Your task to perform on an android device: Open Chrome and go to the settings page Image 0: 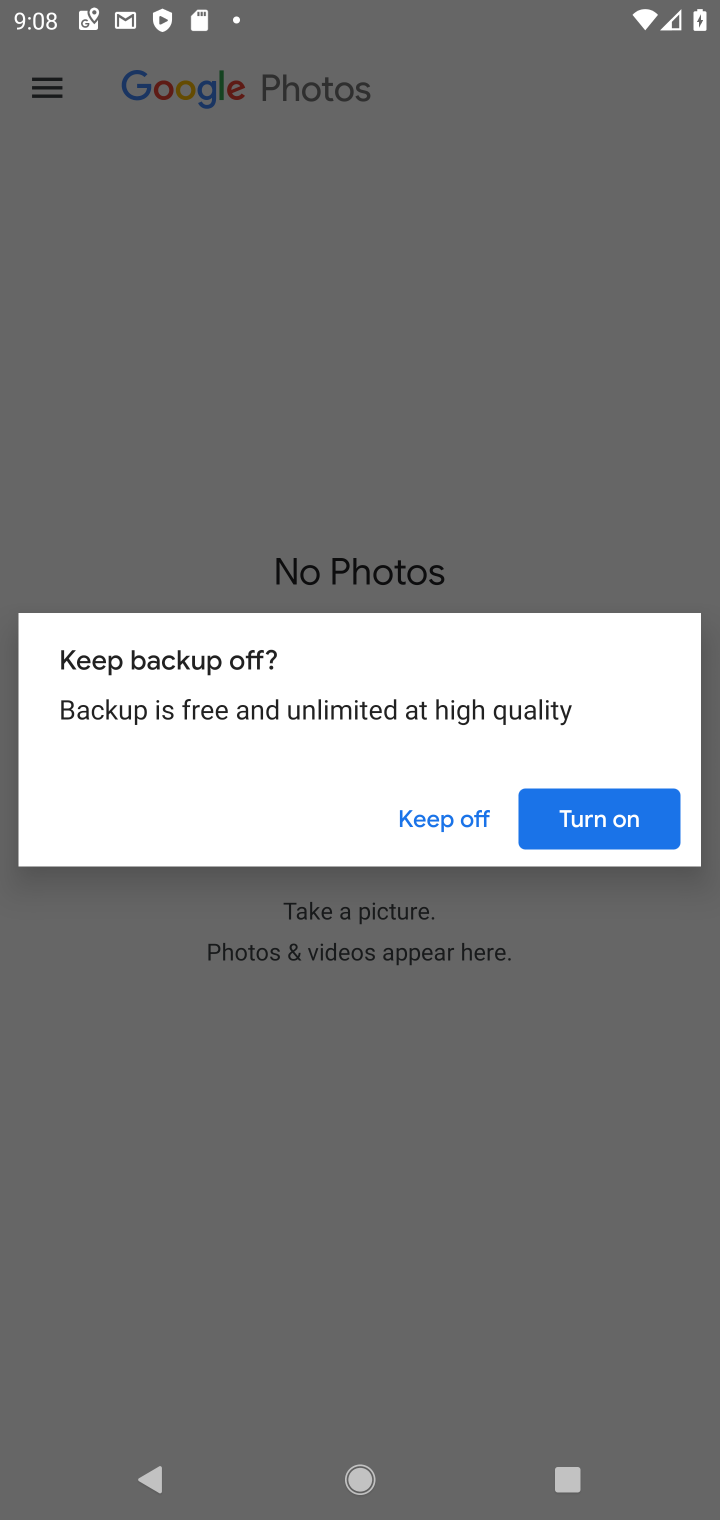
Step 0: click (706, 1079)
Your task to perform on an android device: Open Chrome and go to the settings page Image 1: 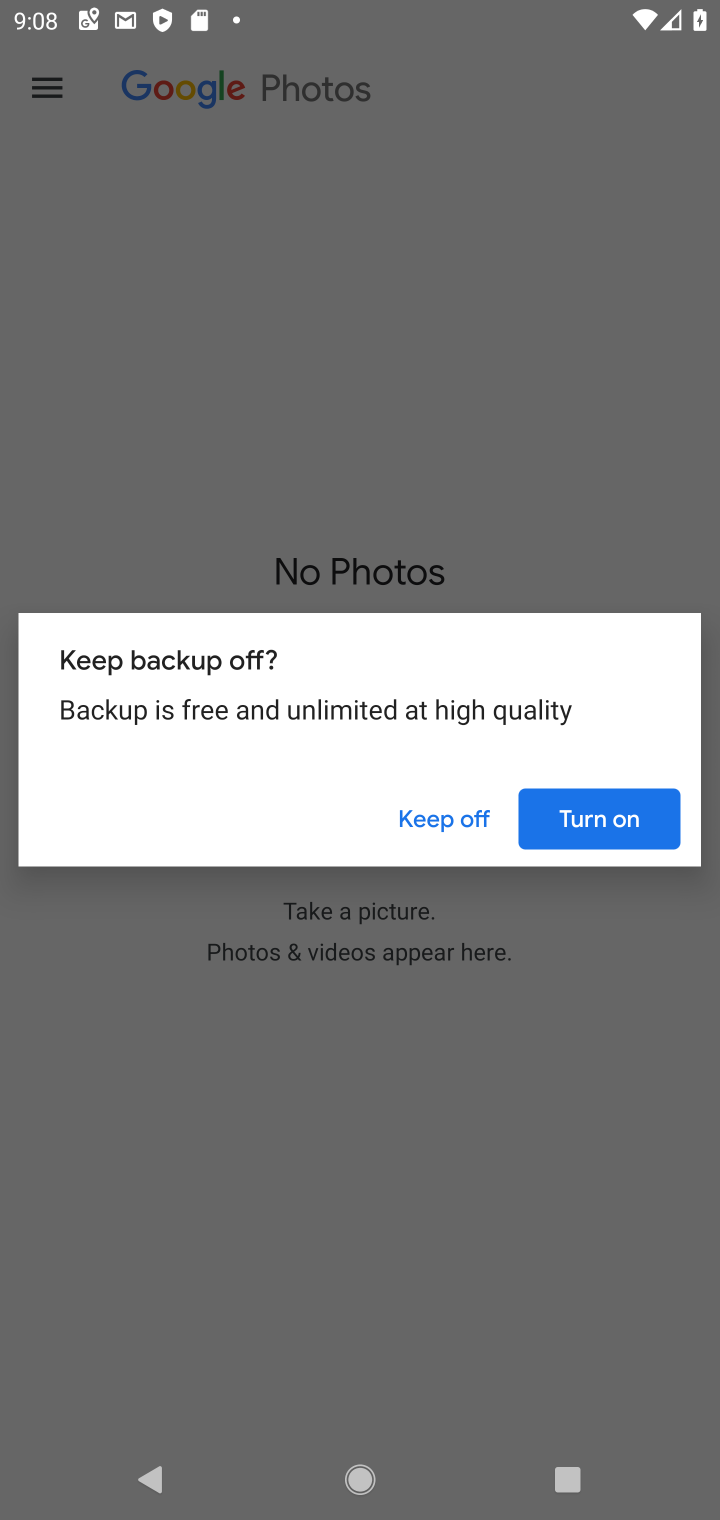
Step 1: click (572, 819)
Your task to perform on an android device: Open Chrome and go to the settings page Image 2: 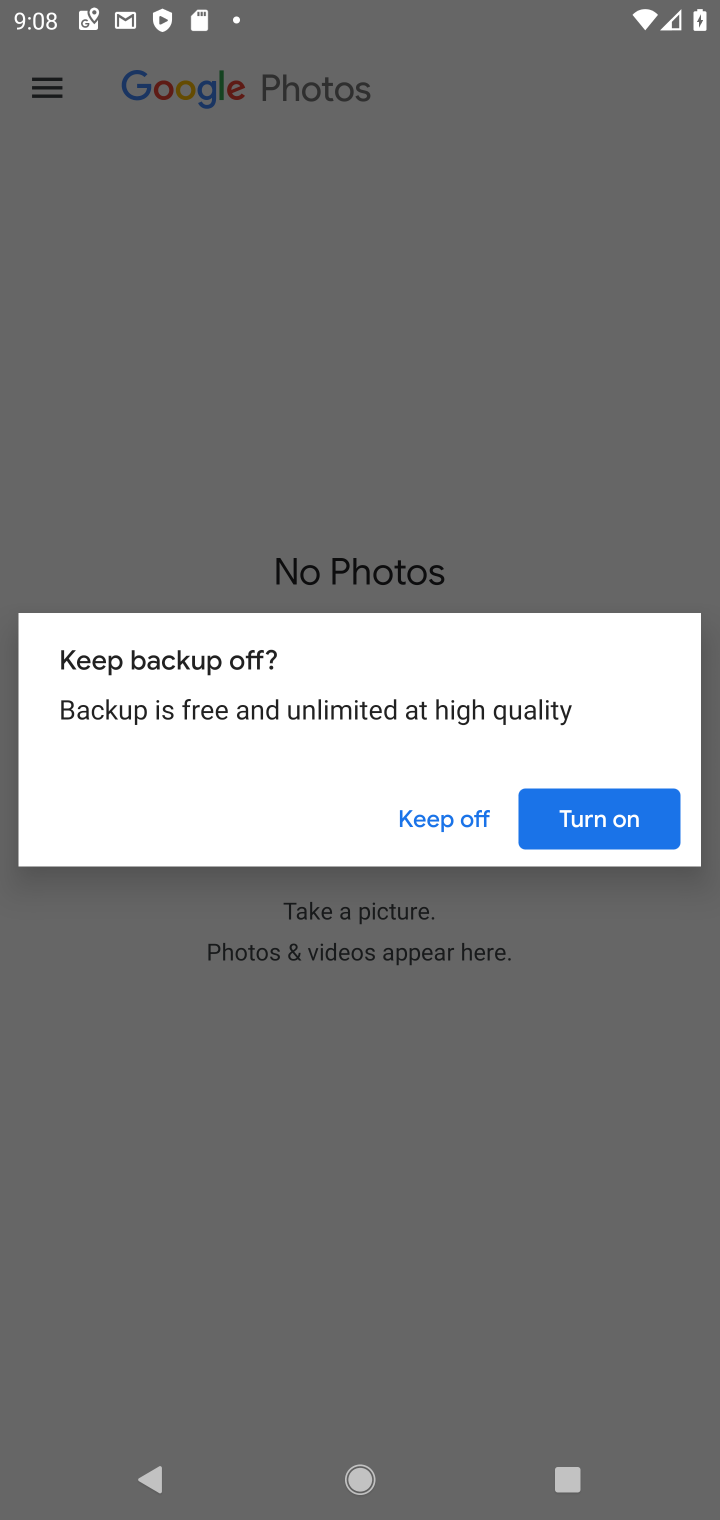
Step 2: press back button
Your task to perform on an android device: Open Chrome and go to the settings page Image 3: 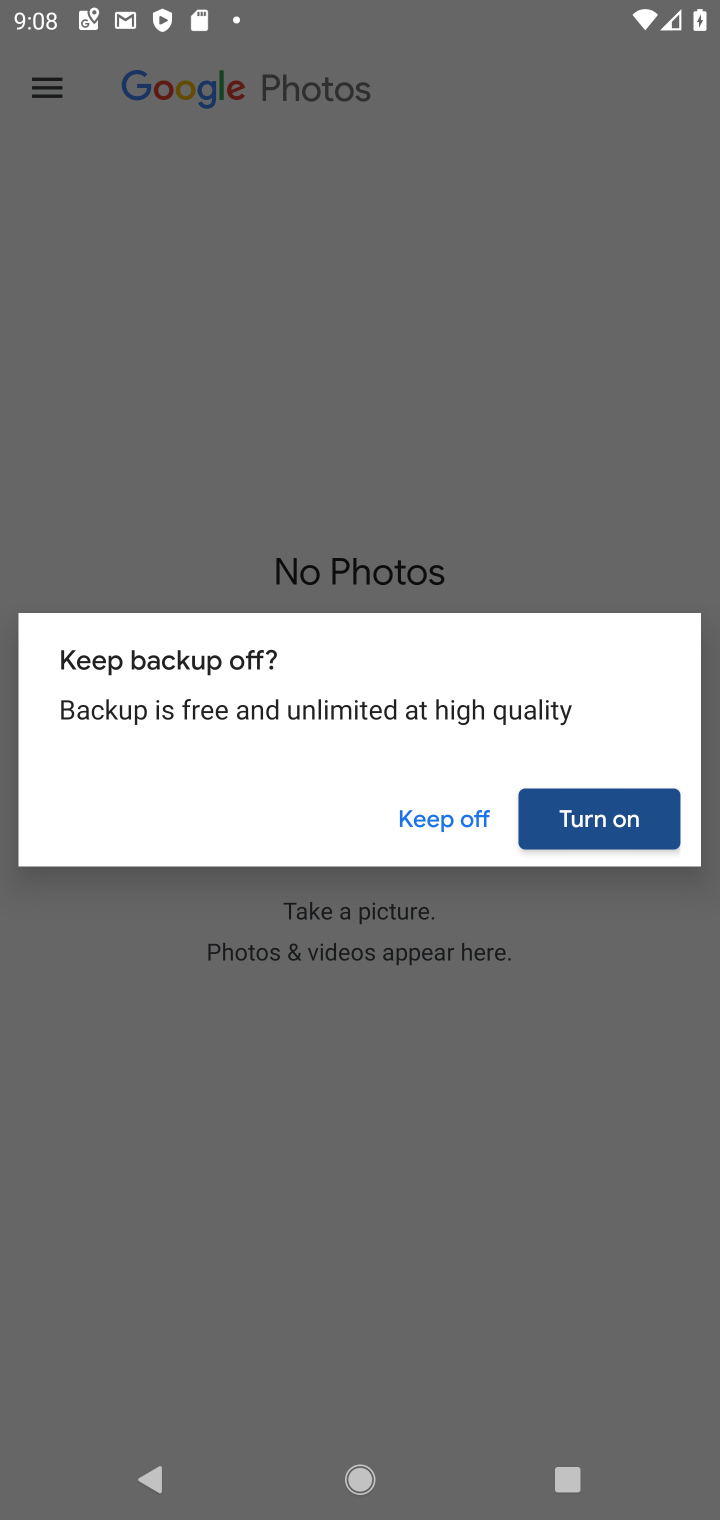
Step 3: press back button
Your task to perform on an android device: Open Chrome and go to the settings page Image 4: 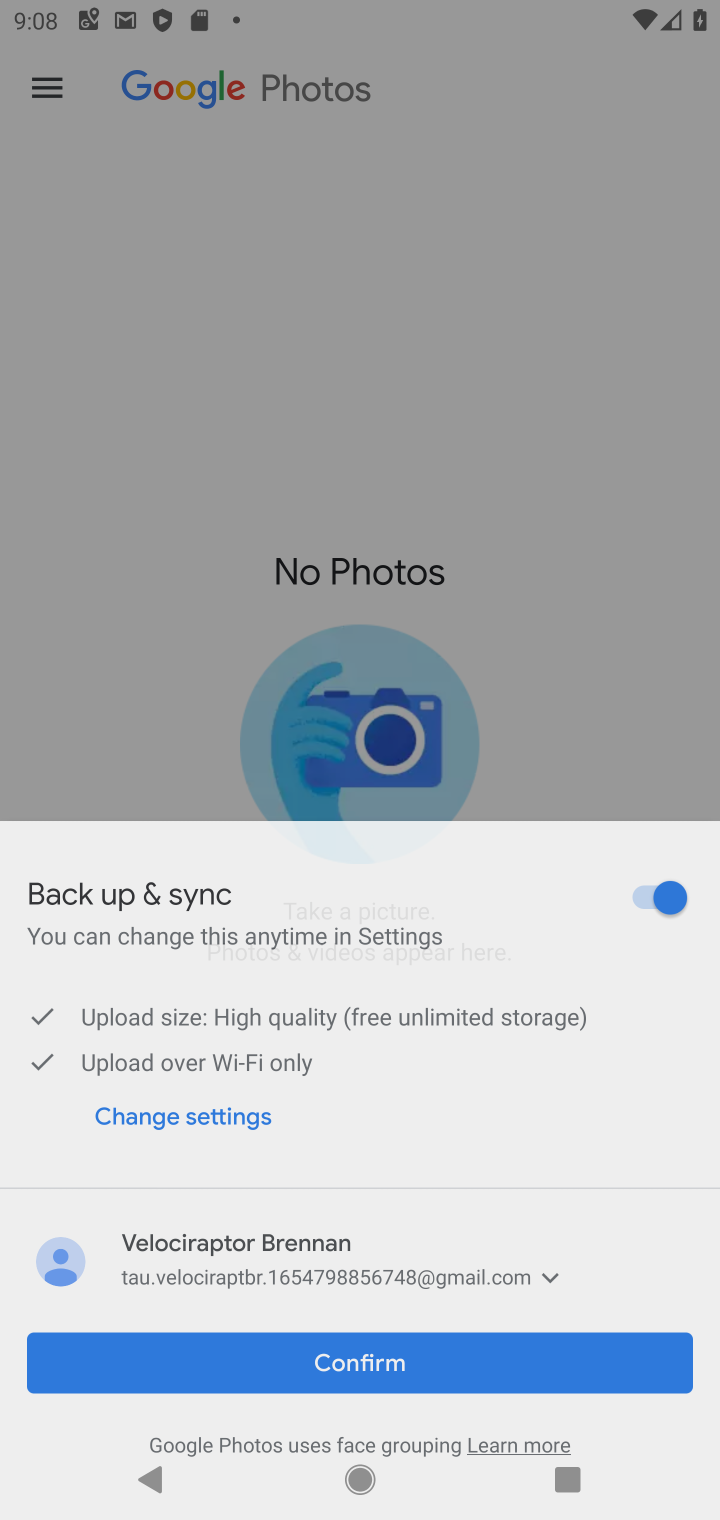
Step 4: press home button
Your task to perform on an android device: Open Chrome and go to the settings page Image 5: 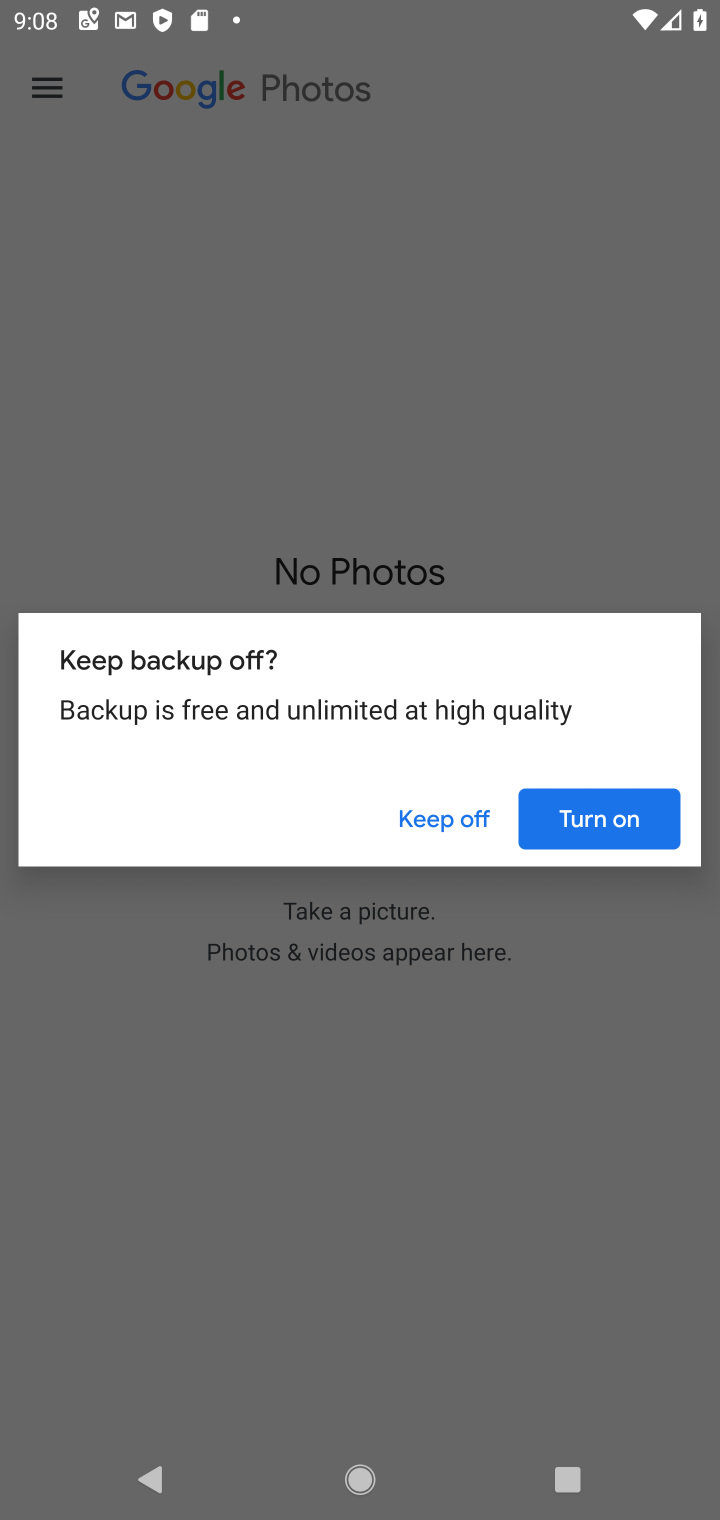
Step 5: press home button
Your task to perform on an android device: Open Chrome and go to the settings page Image 6: 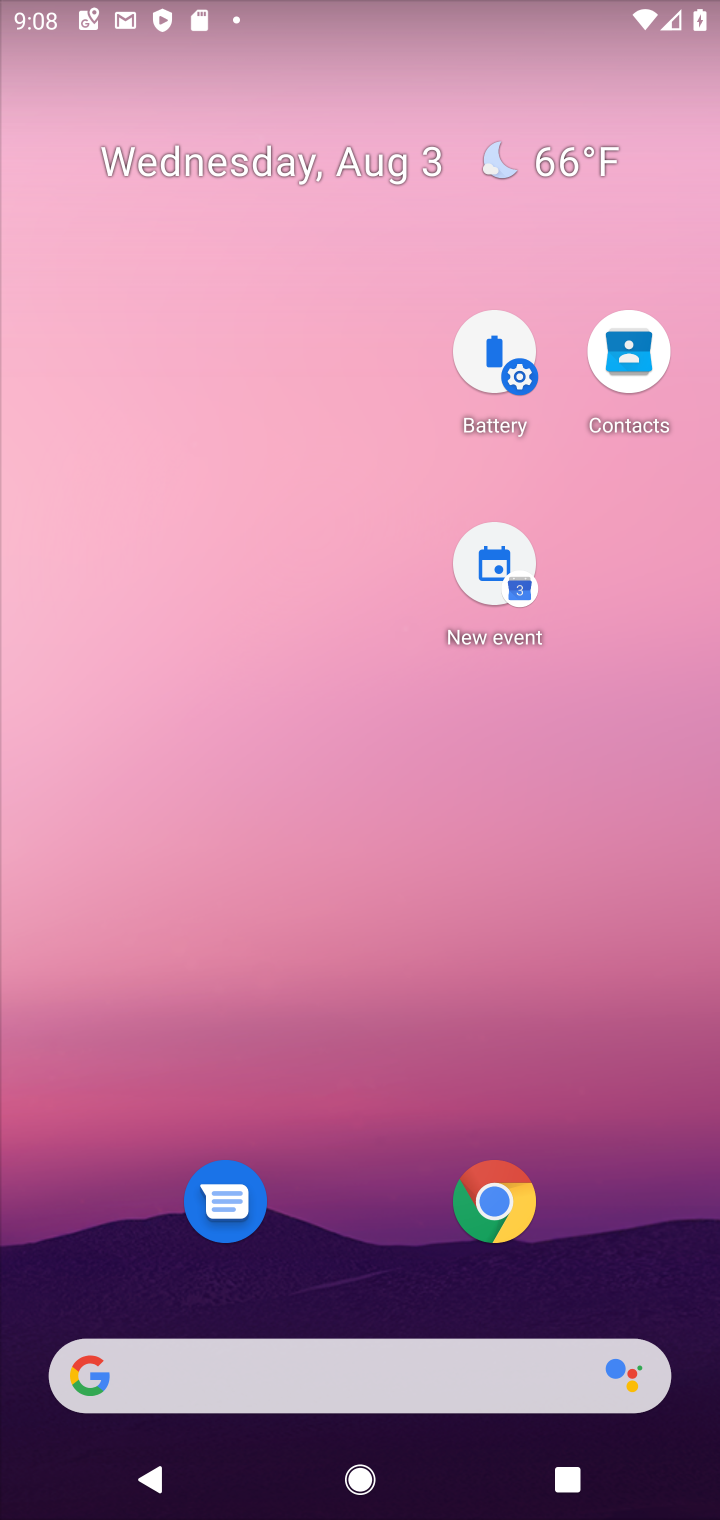
Step 6: press back button
Your task to perform on an android device: Open Chrome and go to the settings page Image 7: 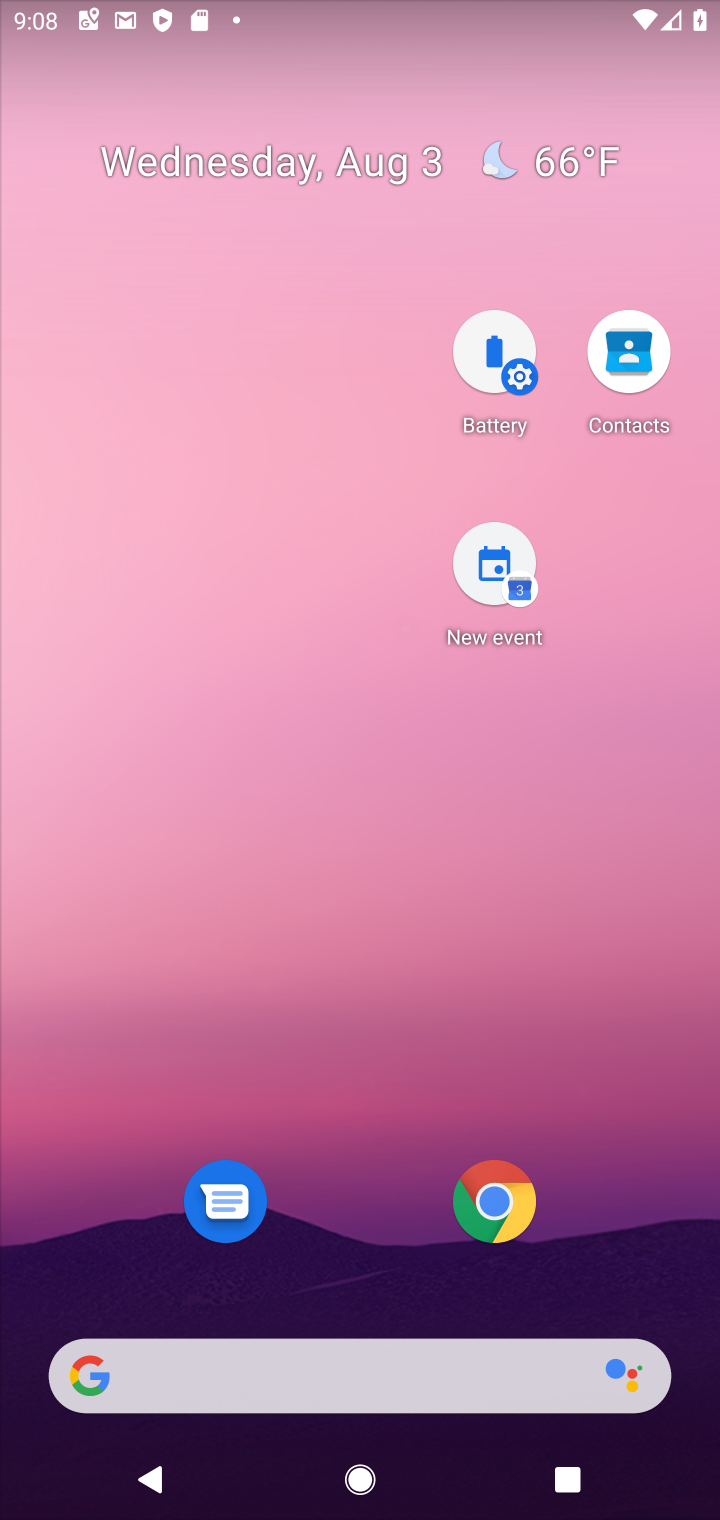
Step 7: drag from (444, 1288) to (403, 367)
Your task to perform on an android device: Open Chrome and go to the settings page Image 8: 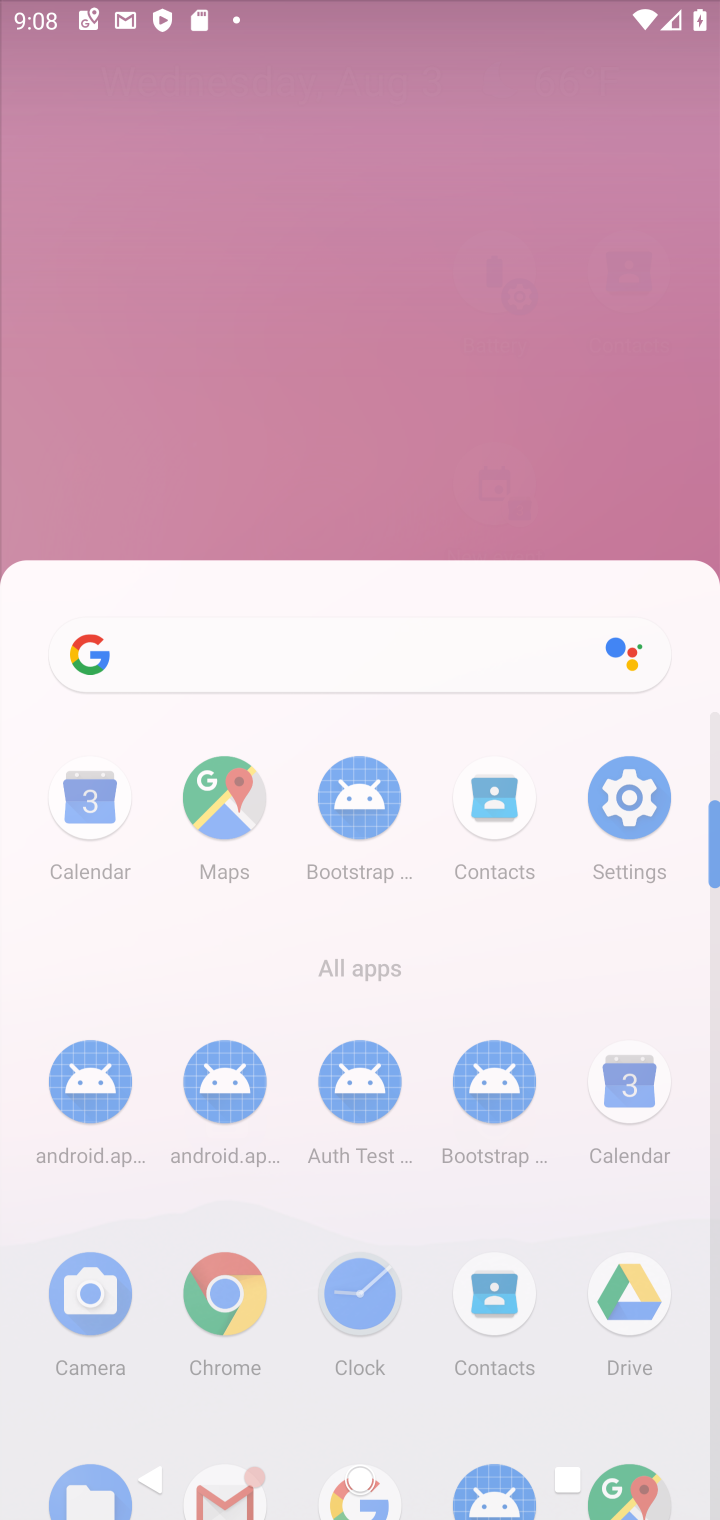
Step 8: drag from (304, 1149) to (432, 432)
Your task to perform on an android device: Open Chrome and go to the settings page Image 9: 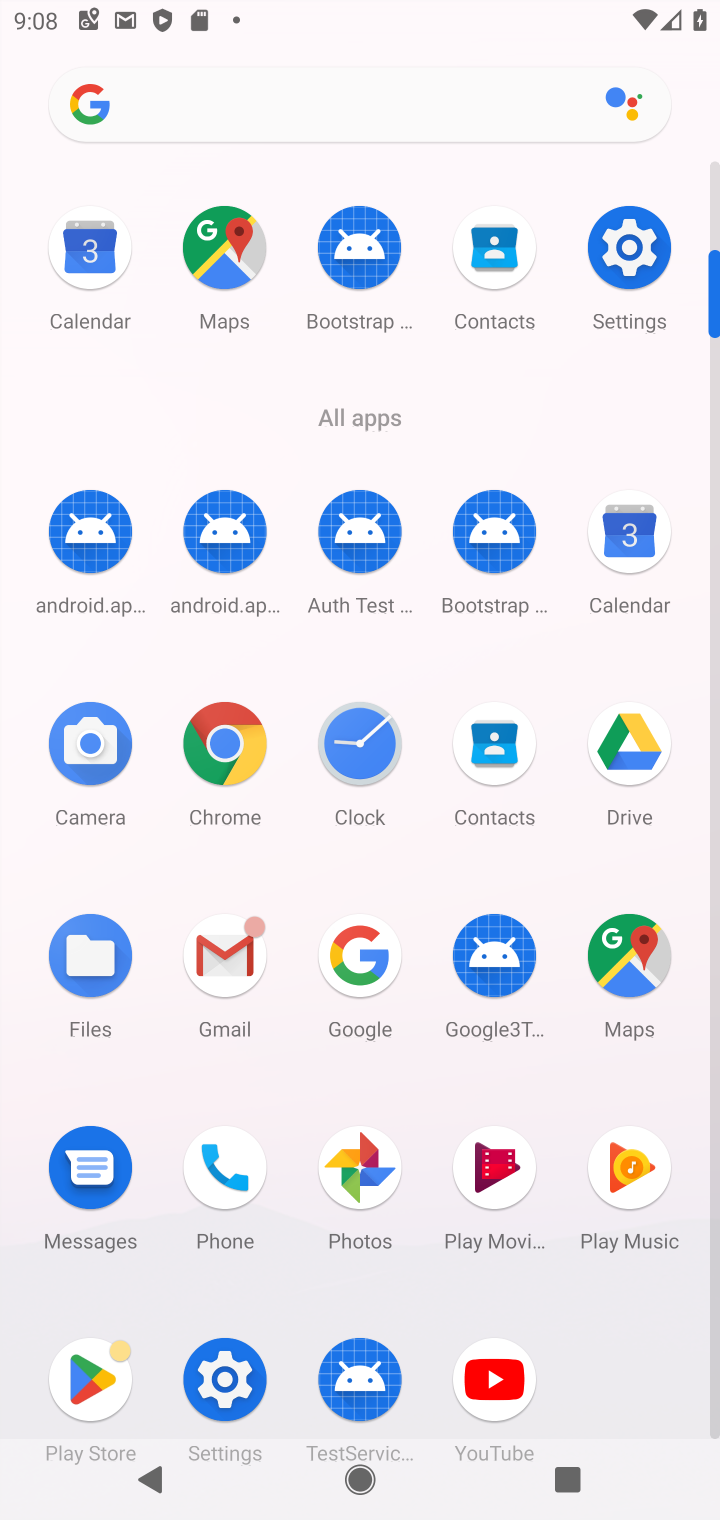
Step 9: click (643, 262)
Your task to perform on an android device: Open Chrome and go to the settings page Image 10: 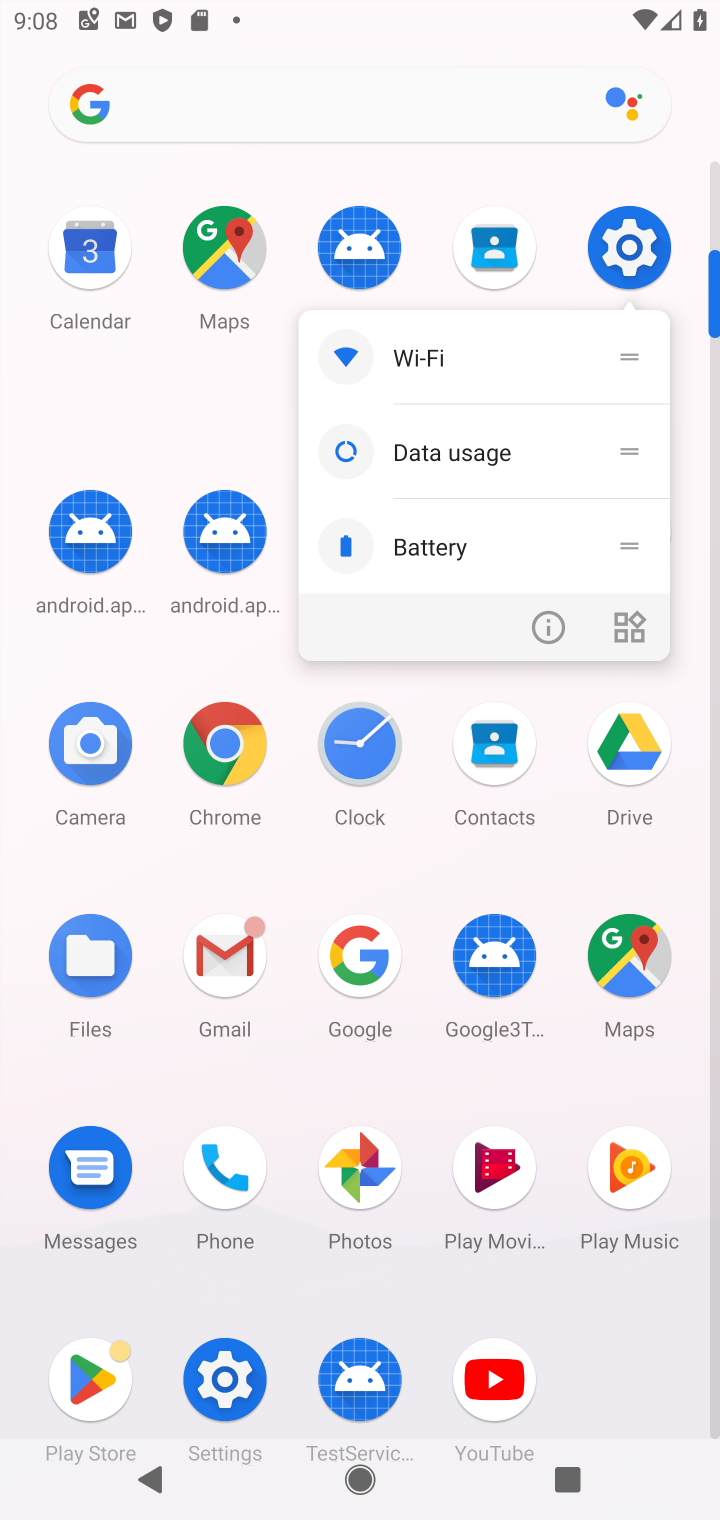
Step 10: click (111, 381)
Your task to perform on an android device: Open Chrome and go to the settings page Image 11: 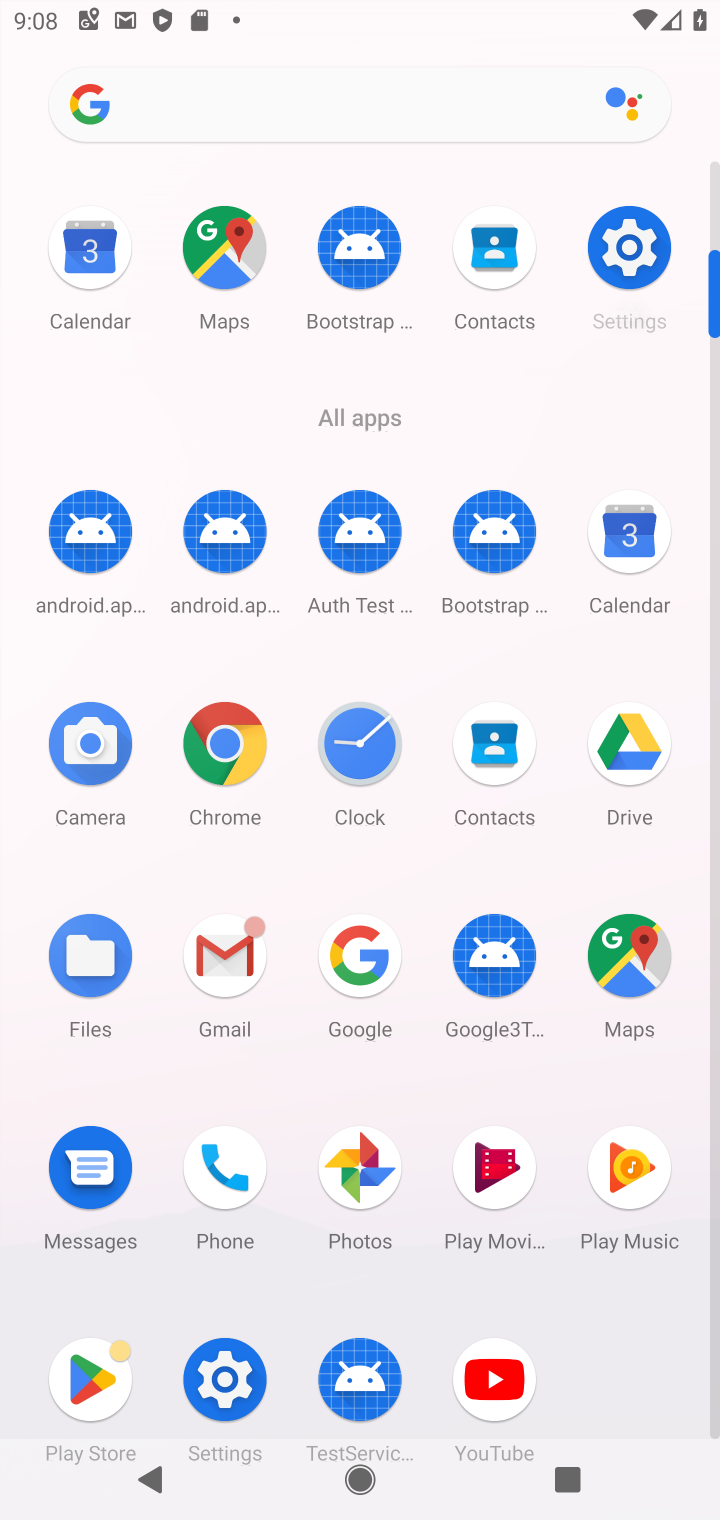
Step 11: click (228, 751)
Your task to perform on an android device: Open Chrome and go to the settings page Image 12: 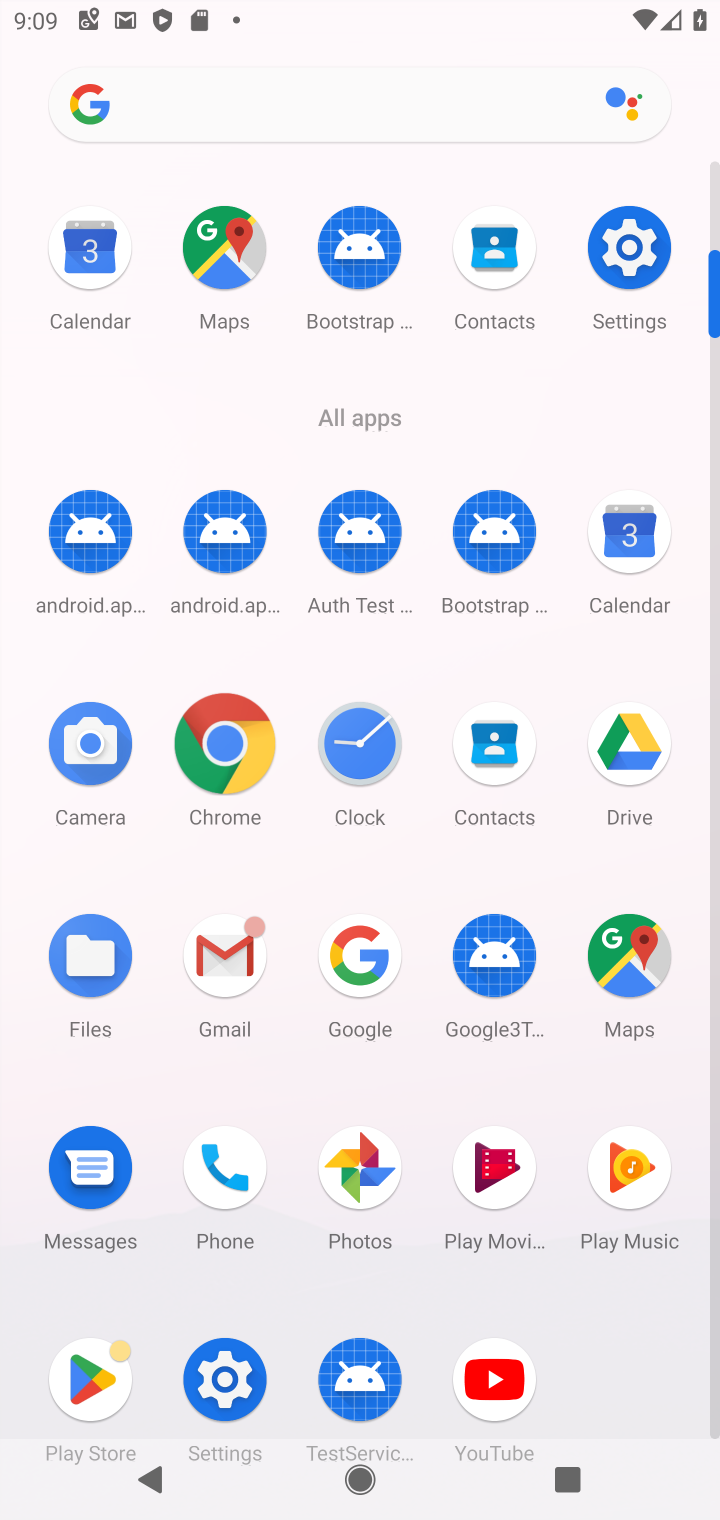
Step 12: click (235, 742)
Your task to perform on an android device: Open Chrome and go to the settings page Image 13: 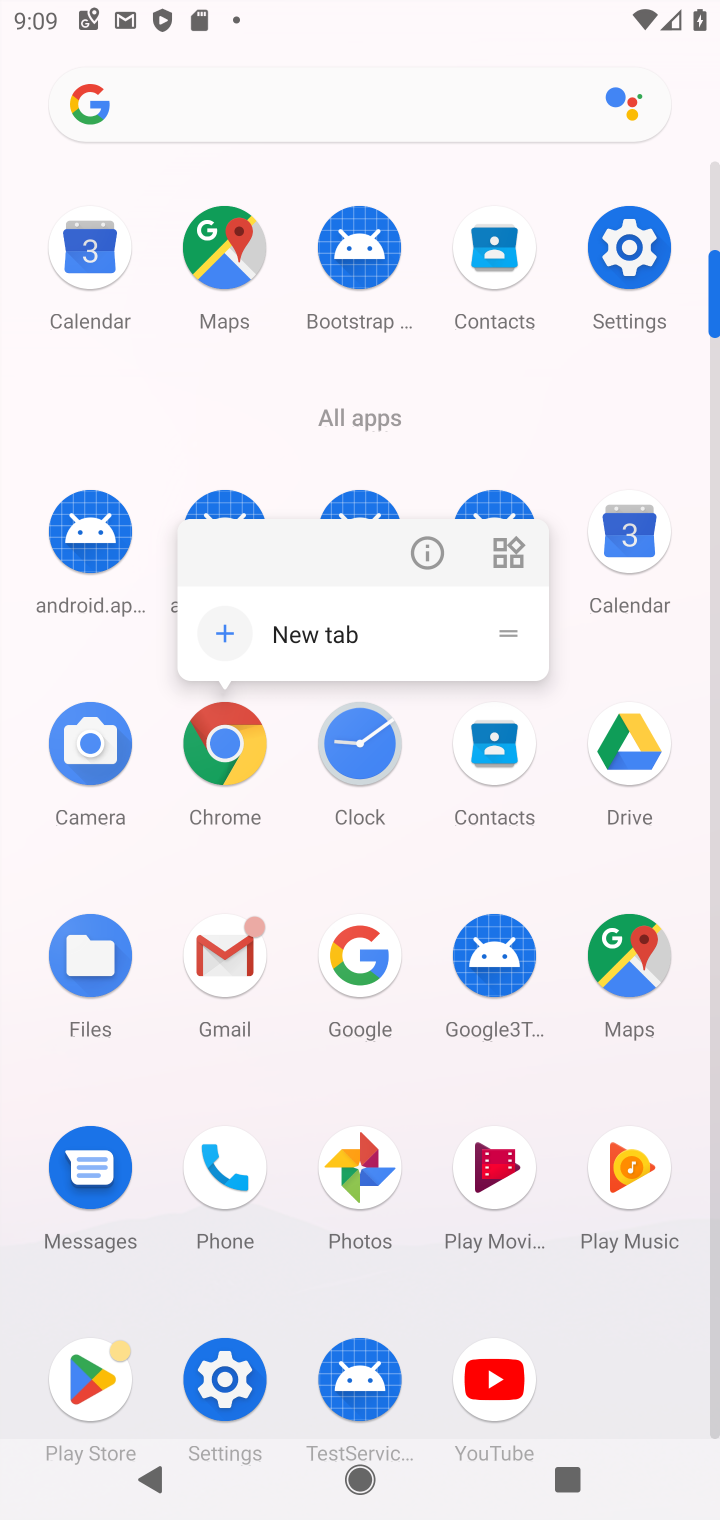
Step 13: click (242, 739)
Your task to perform on an android device: Open Chrome and go to the settings page Image 14: 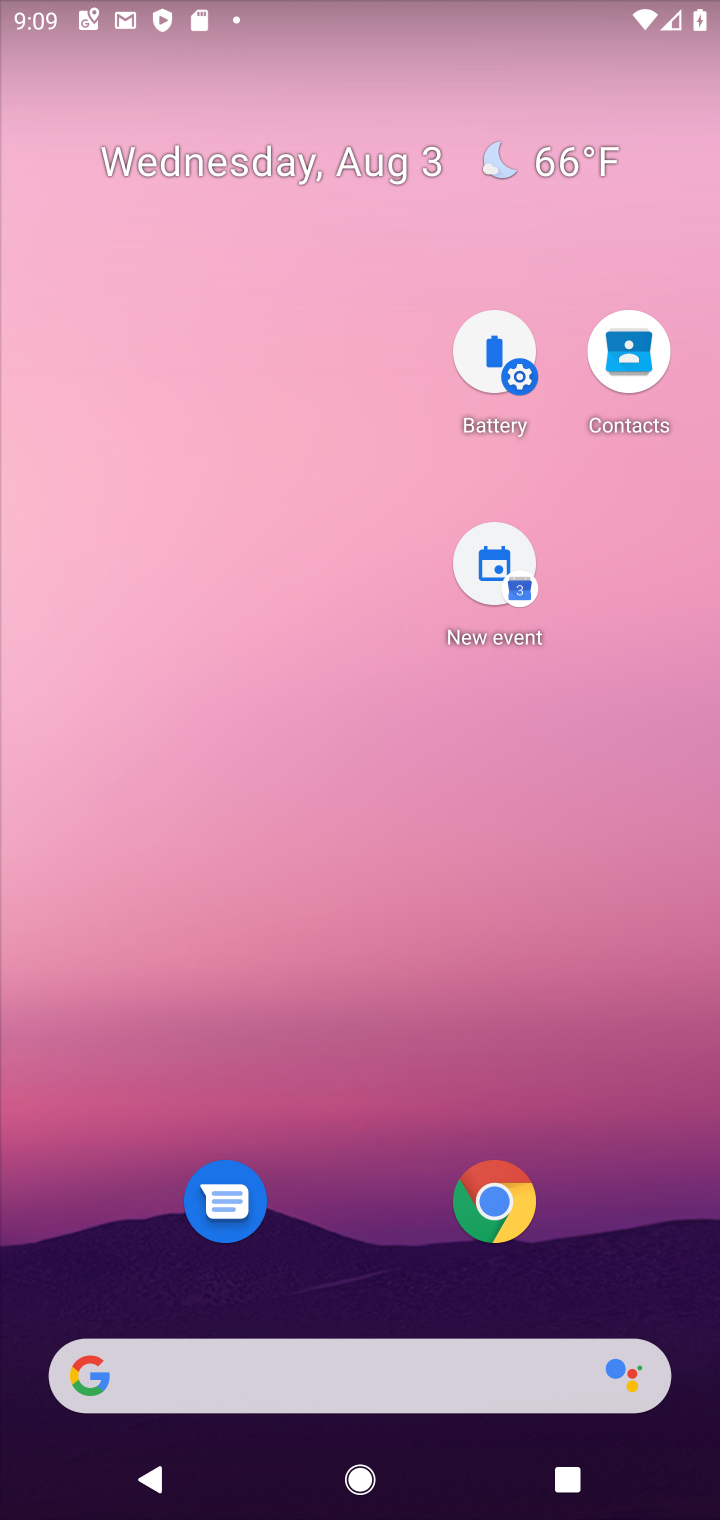
Step 14: drag from (452, 925) to (420, 526)
Your task to perform on an android device: Open Chrome and go to the settings page Image 15: 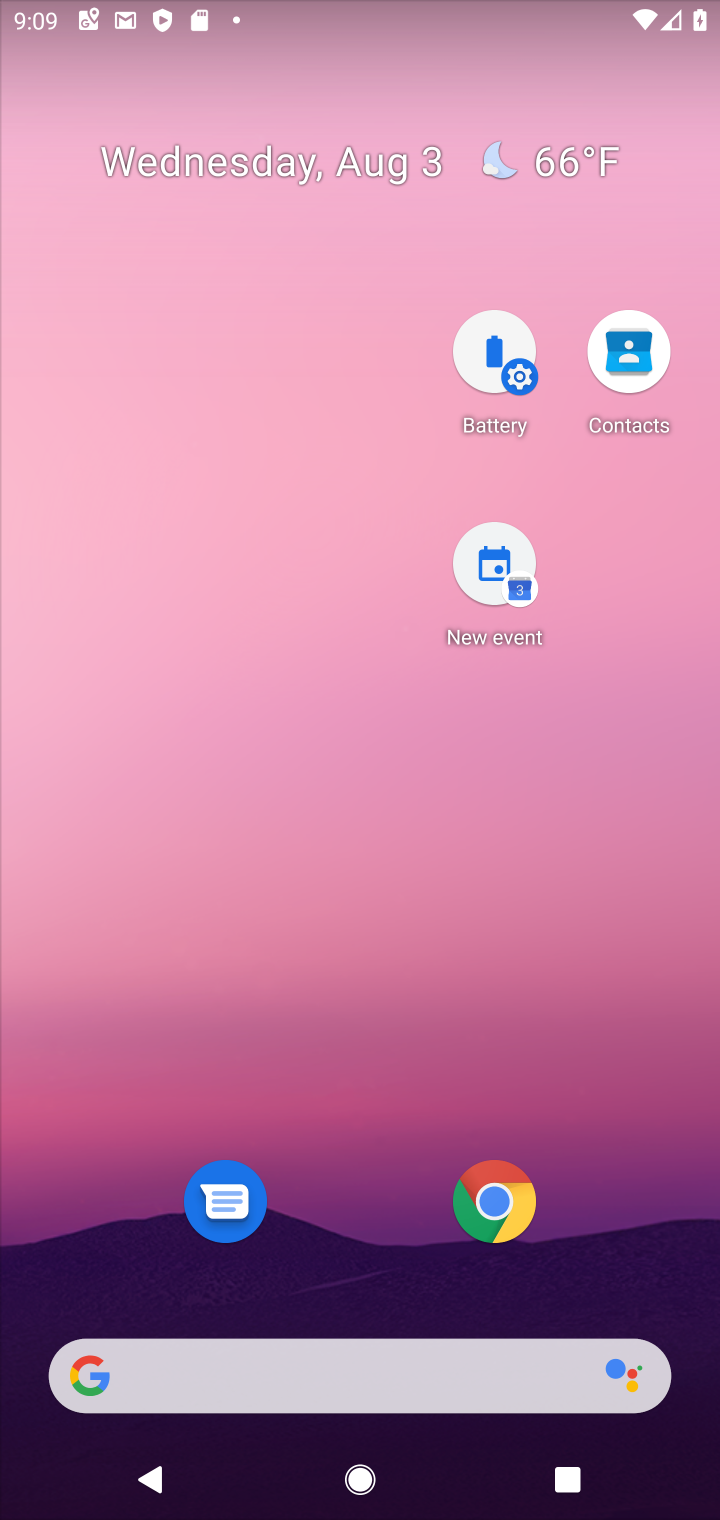
Step 15: click (499, 684)
Your task to perform on an android device: Open Chrome and go to the settings page Image 16: 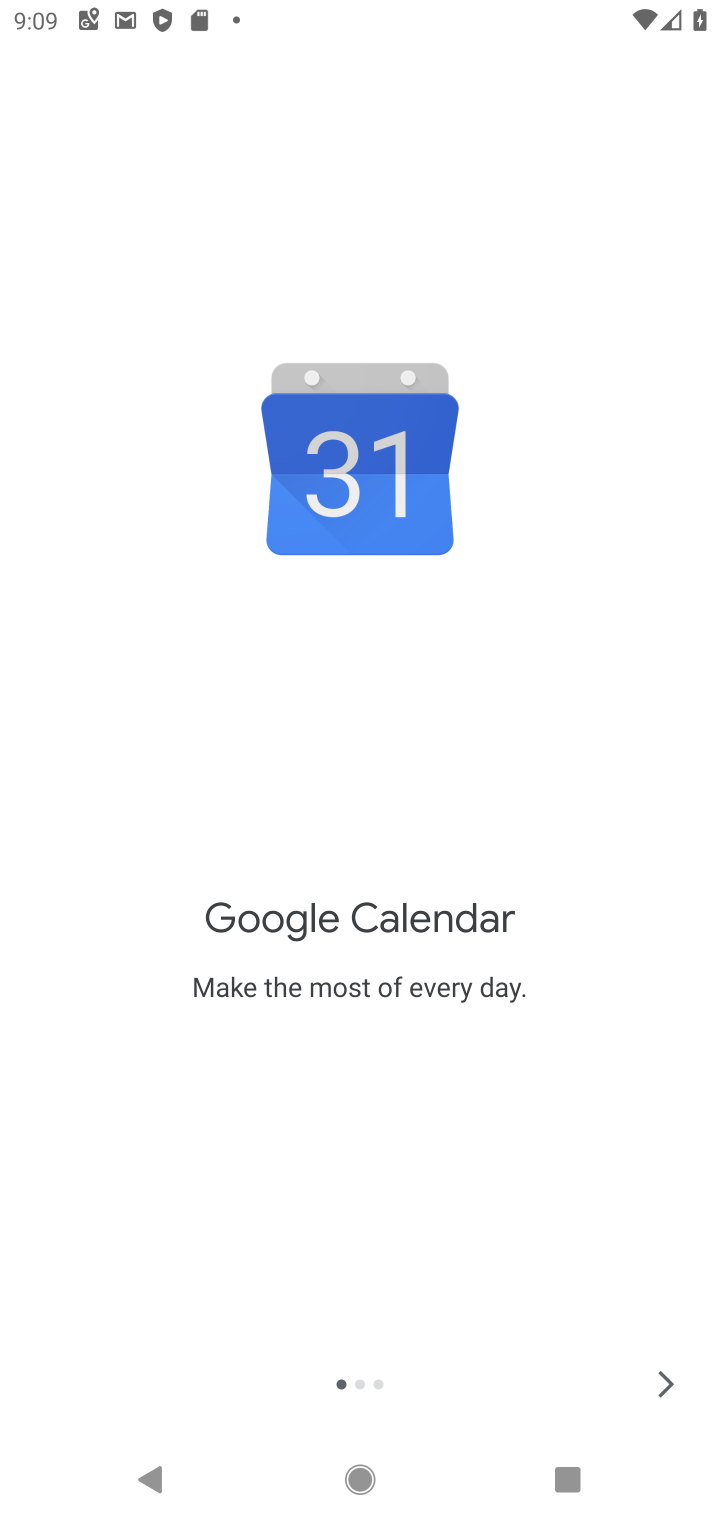
Step 16: click (672, 1372)
Your task to perform on an android device: Open Chrome and go to the settings page Image 17: 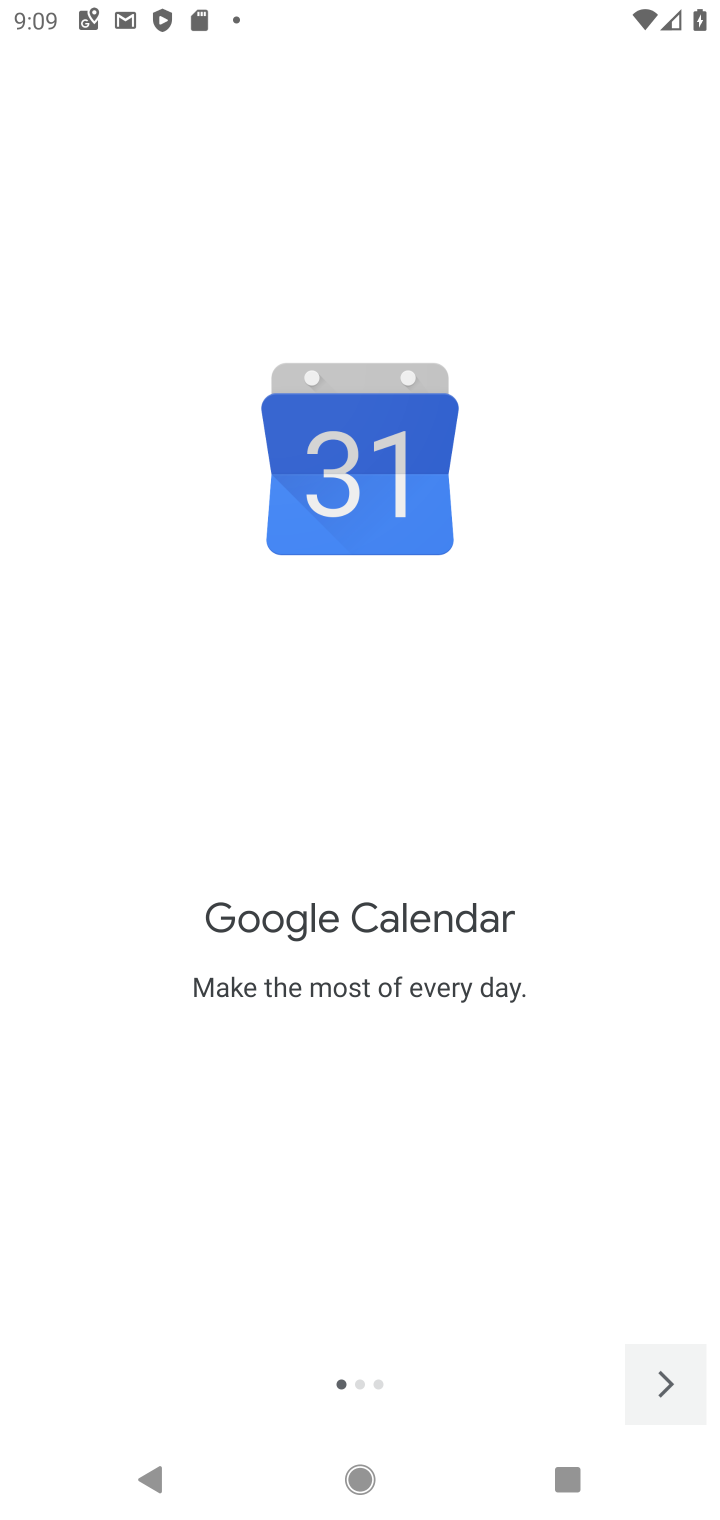
Step 17: click (679, 1370)
Your task to perform on an android device: Open Chrome and go to the settings page Image 18: 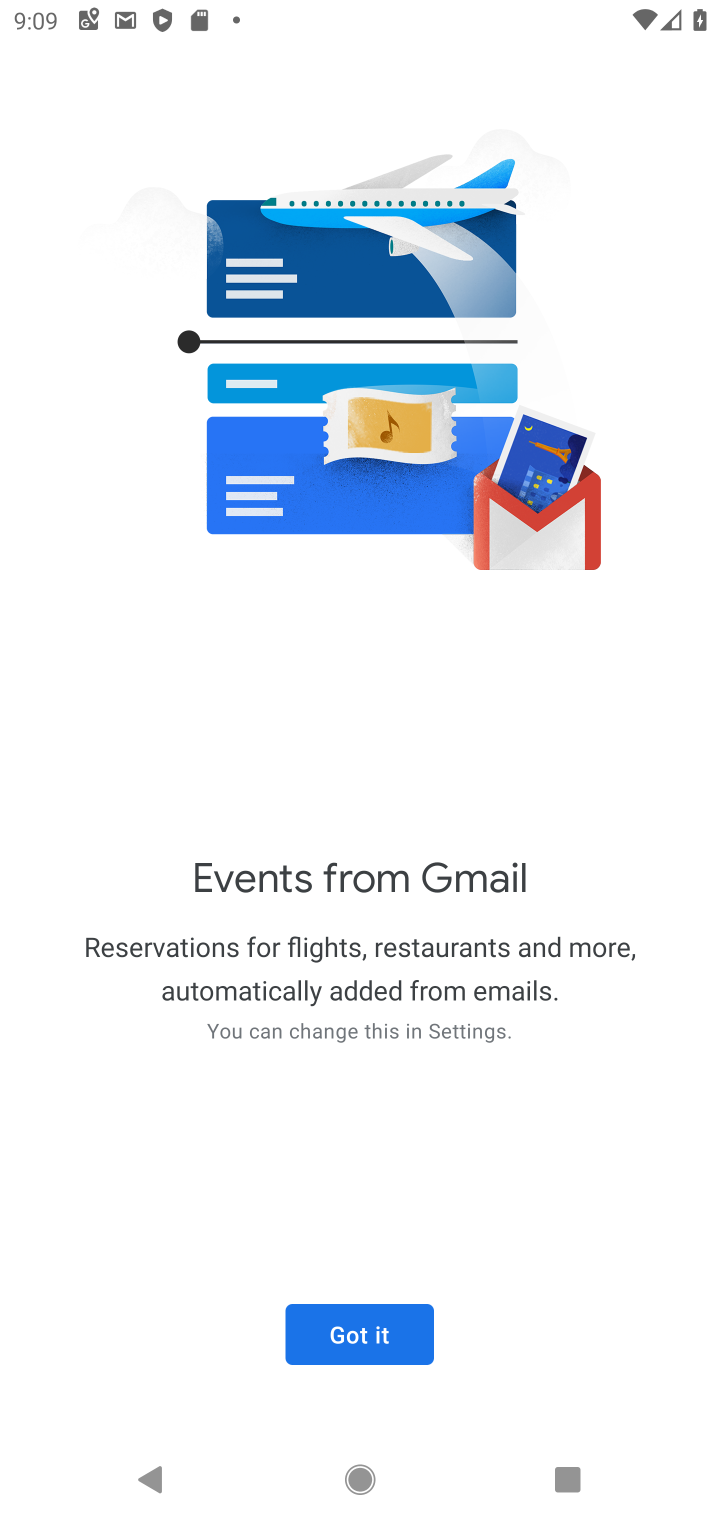
Step 18: press back button
Your task to perform on an android device: Open Chrome and go to the settings page Image 19: 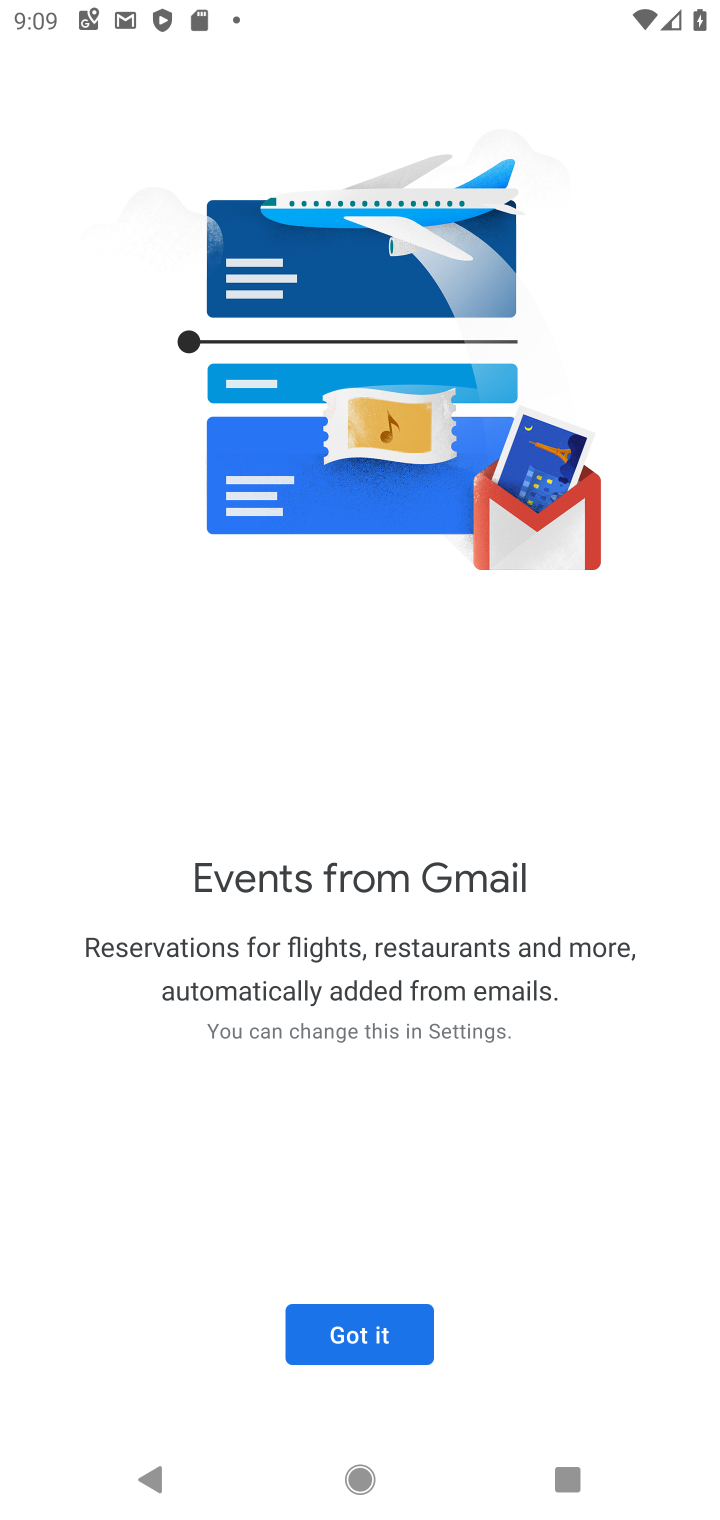
Step 19: press back button
Your task to perform on an android device: Open Chrome and go to the settings page Image 20: 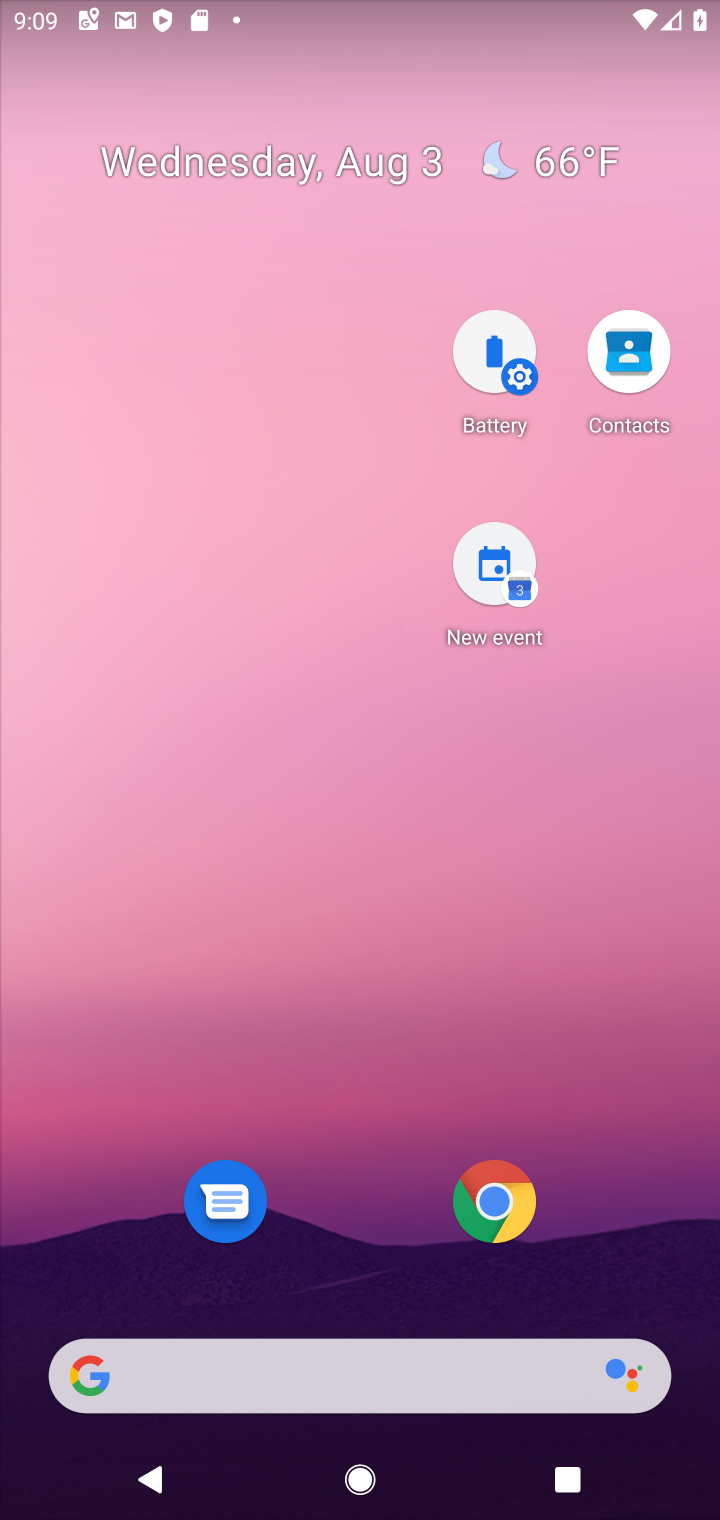
Step 20: press back button
Your task to perform on an android device: Open Chrome and go to the settings page Image 21: 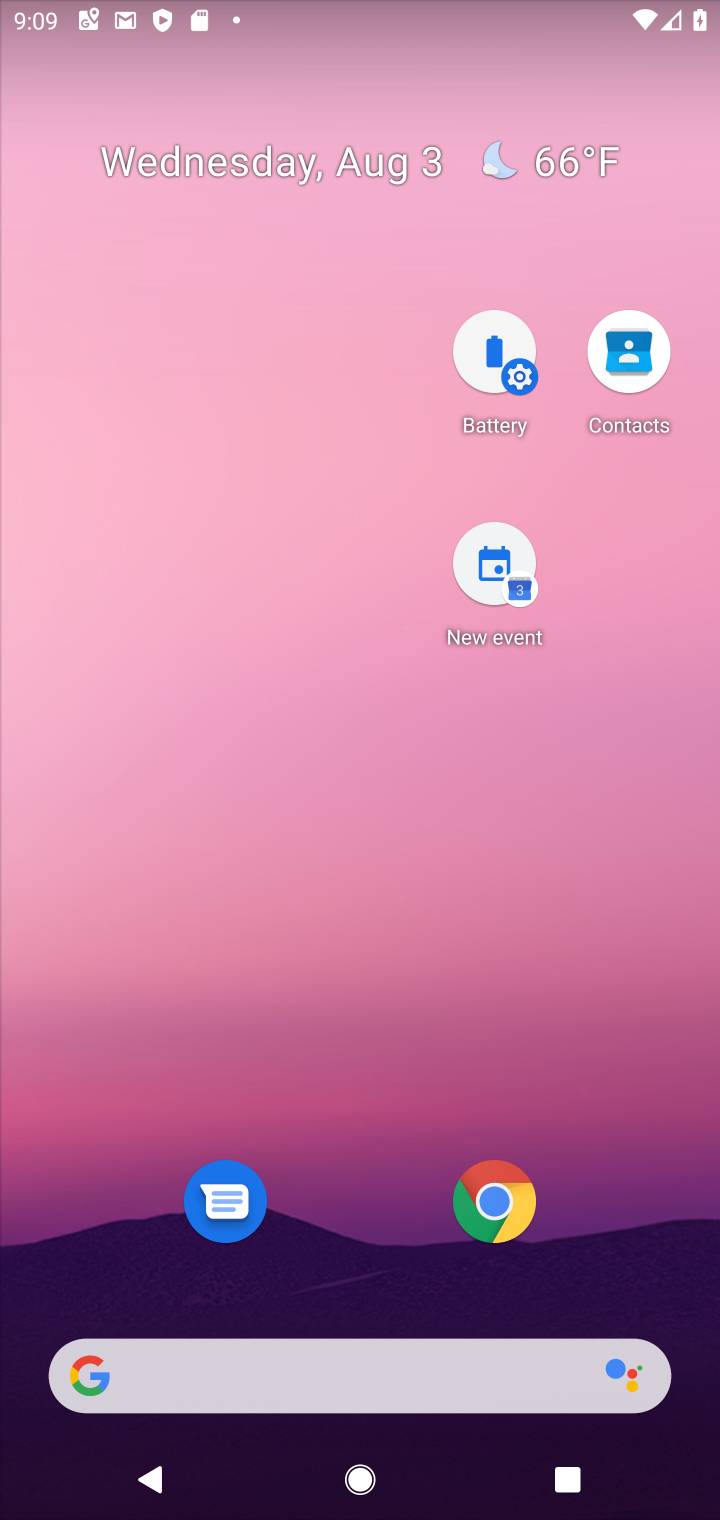
Step 21: press home button
Your task to perform on an android device: Open Chrome and go to the settings page Image 22: 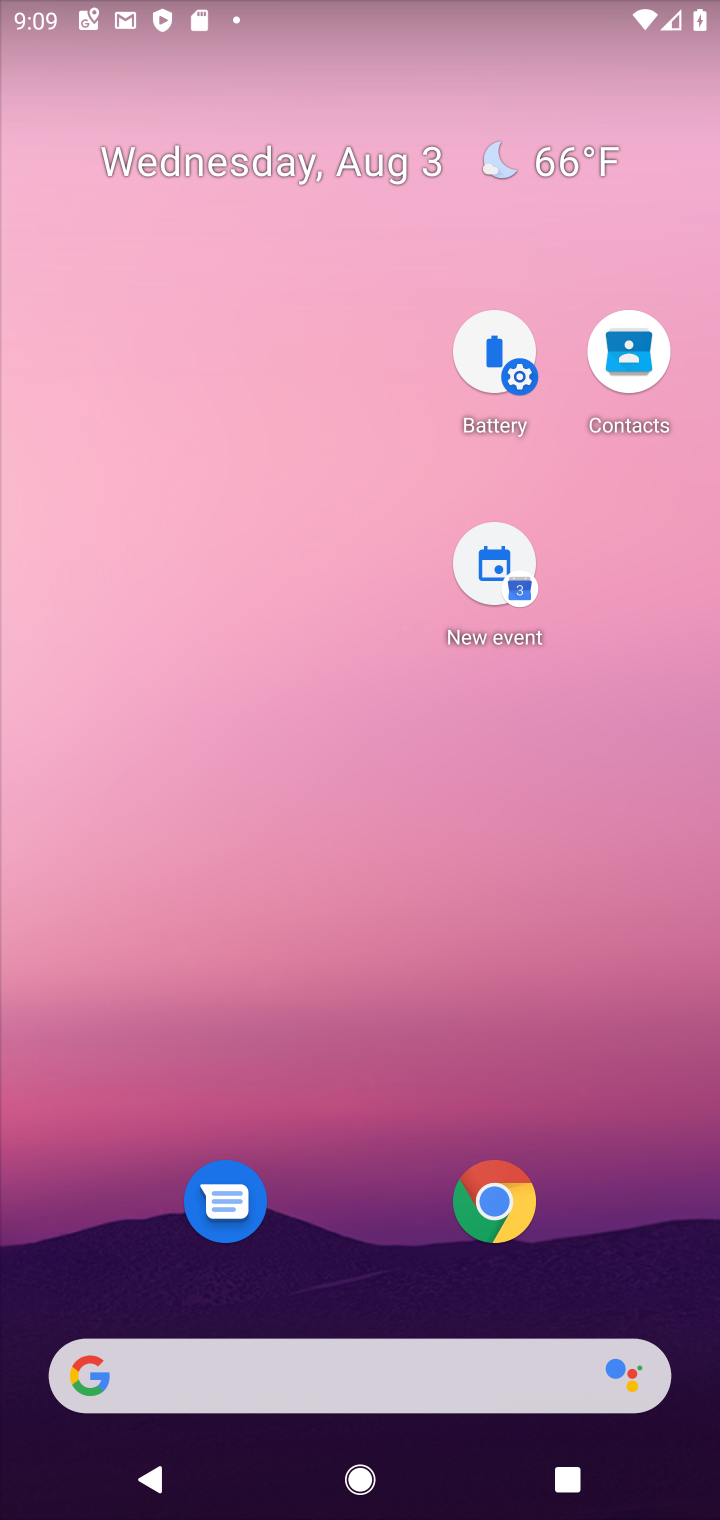
Step 22: press back button
Your task to perform on an android device: Open Chrome and go to the settings page Image 23: 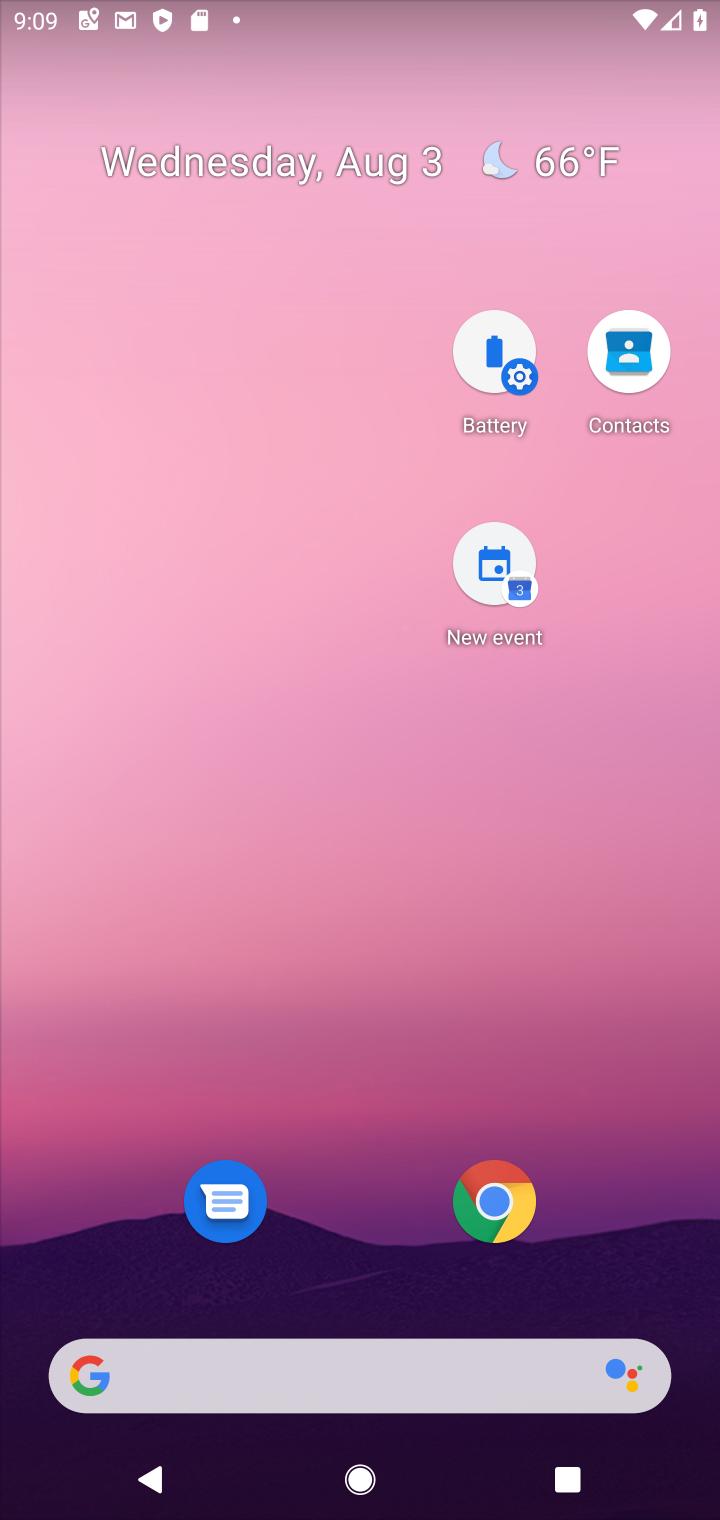
Step 23: drag from (598, 1418) to (578, 225)
Your task to perform on an android device: Open Chrome and go to the settings page Image 24: 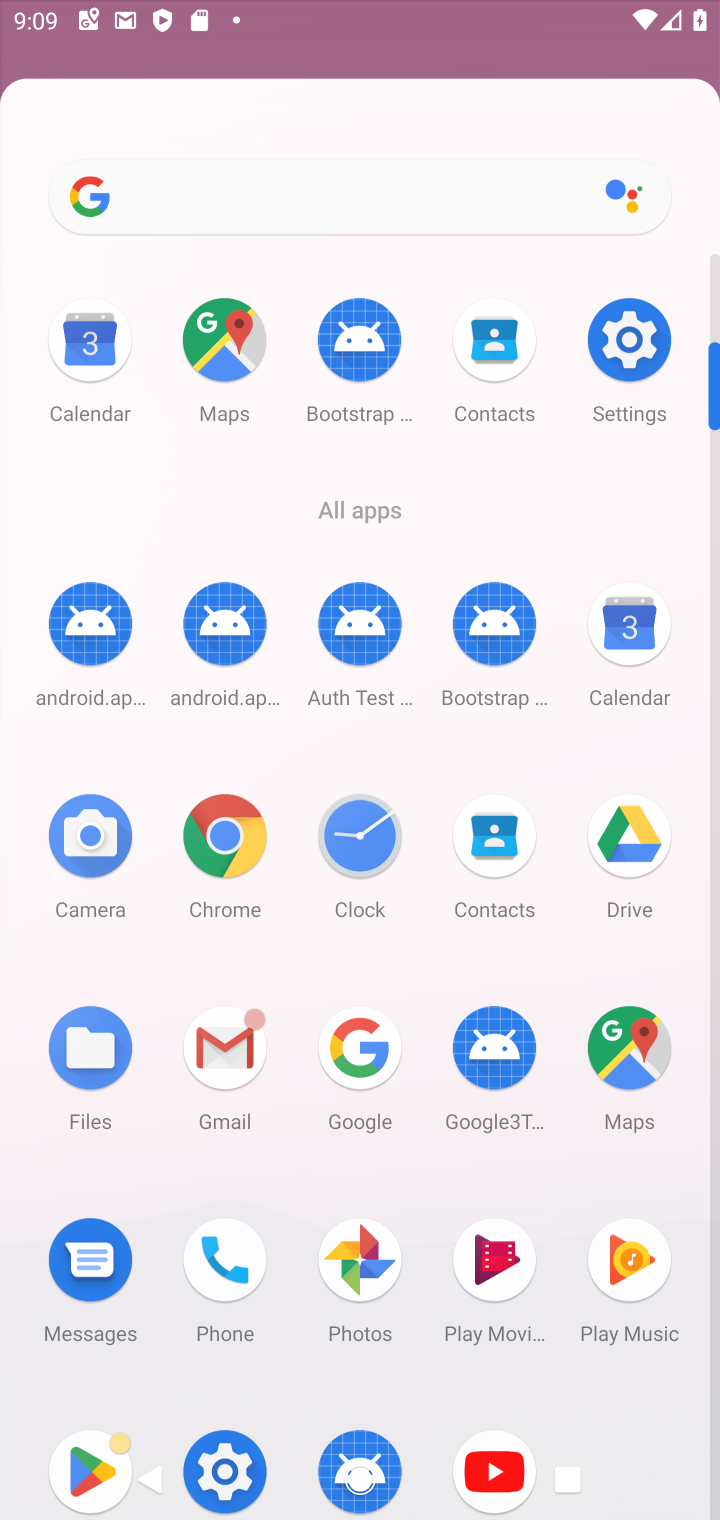
Step 24: drag from (506, 1171) to (489, 124)
Your task to perform on an android device: Open Chrome and go to the settings page Image 25: 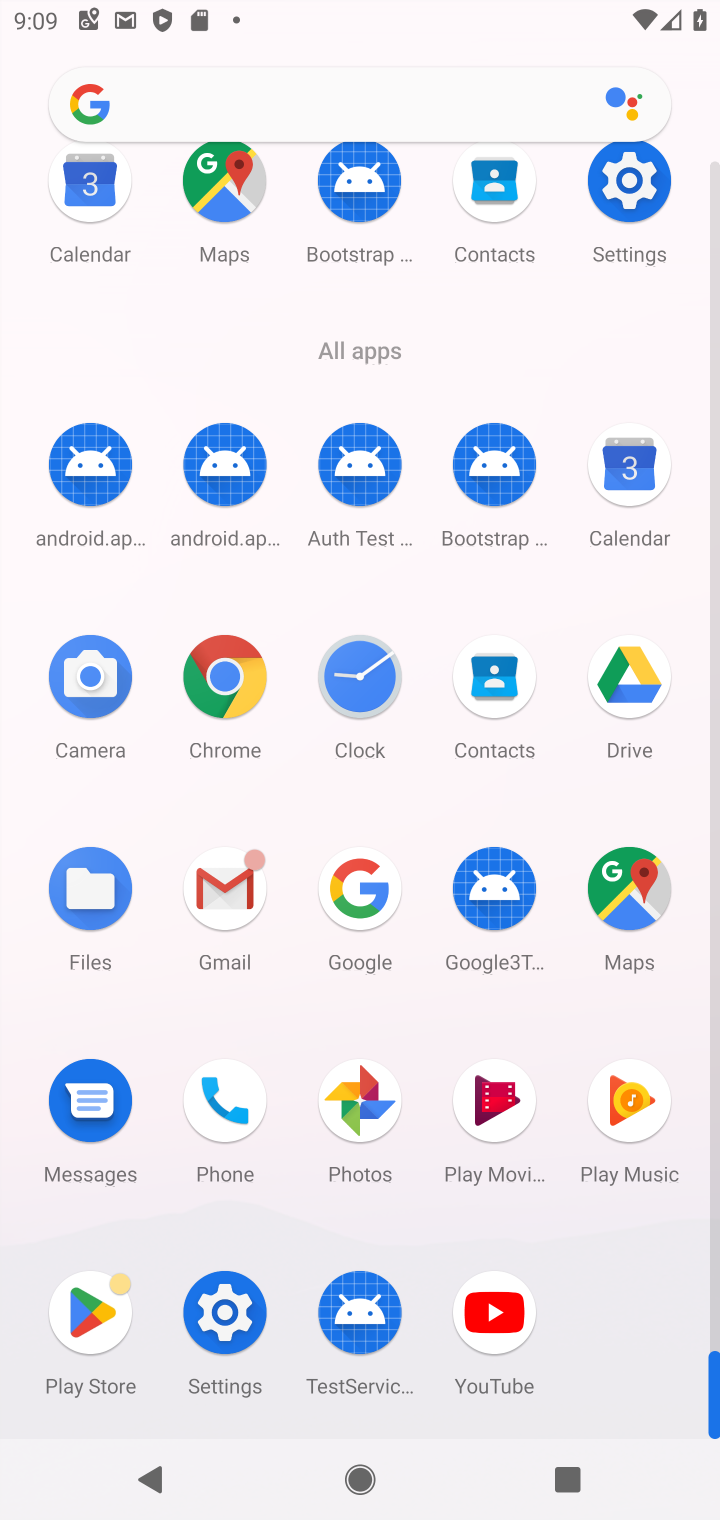
Step 25: click (227, 688)
Your task to perform on an android device: Open Chrome and go to the settings page Image 26: 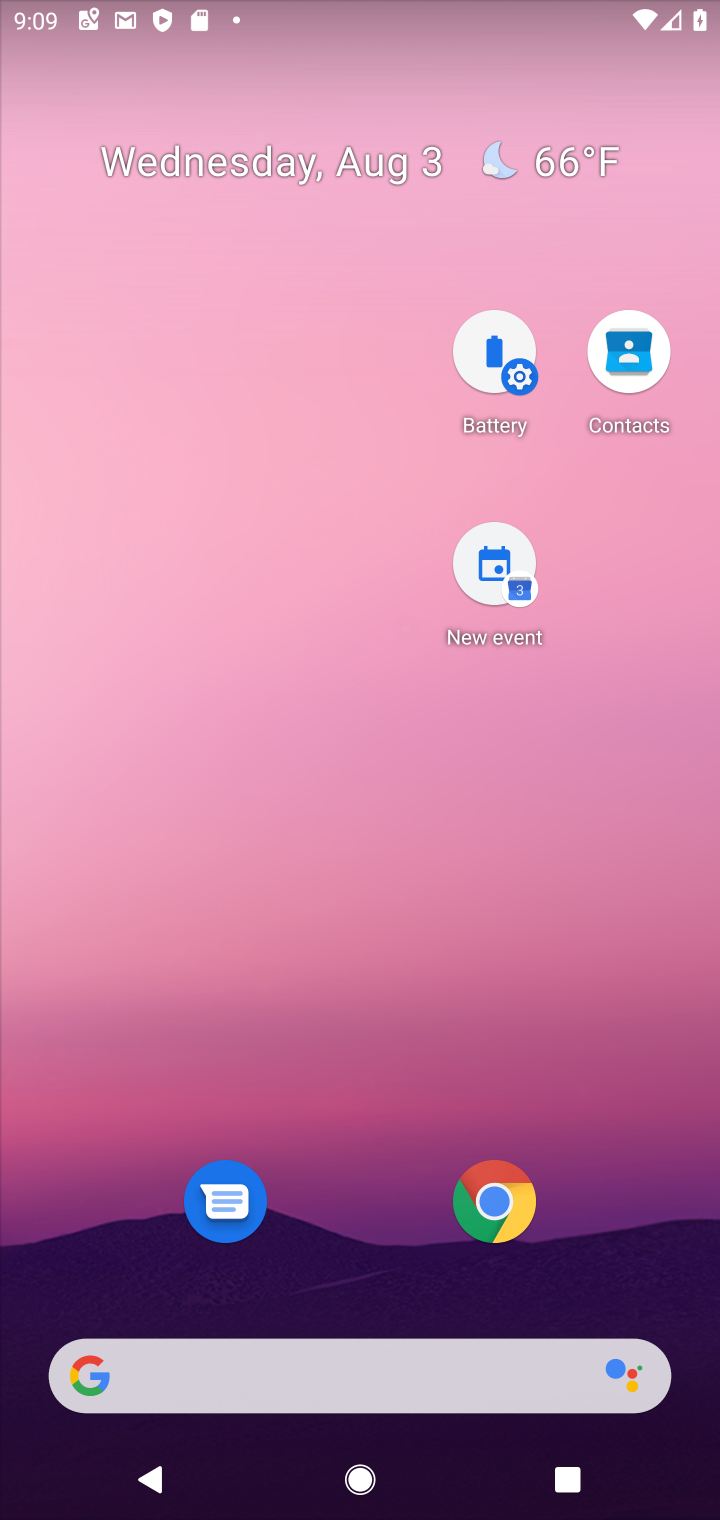
Step 26: click (235, 684)
Your task to perform on an android device: Open Chrome and go to the settings page Image 27: 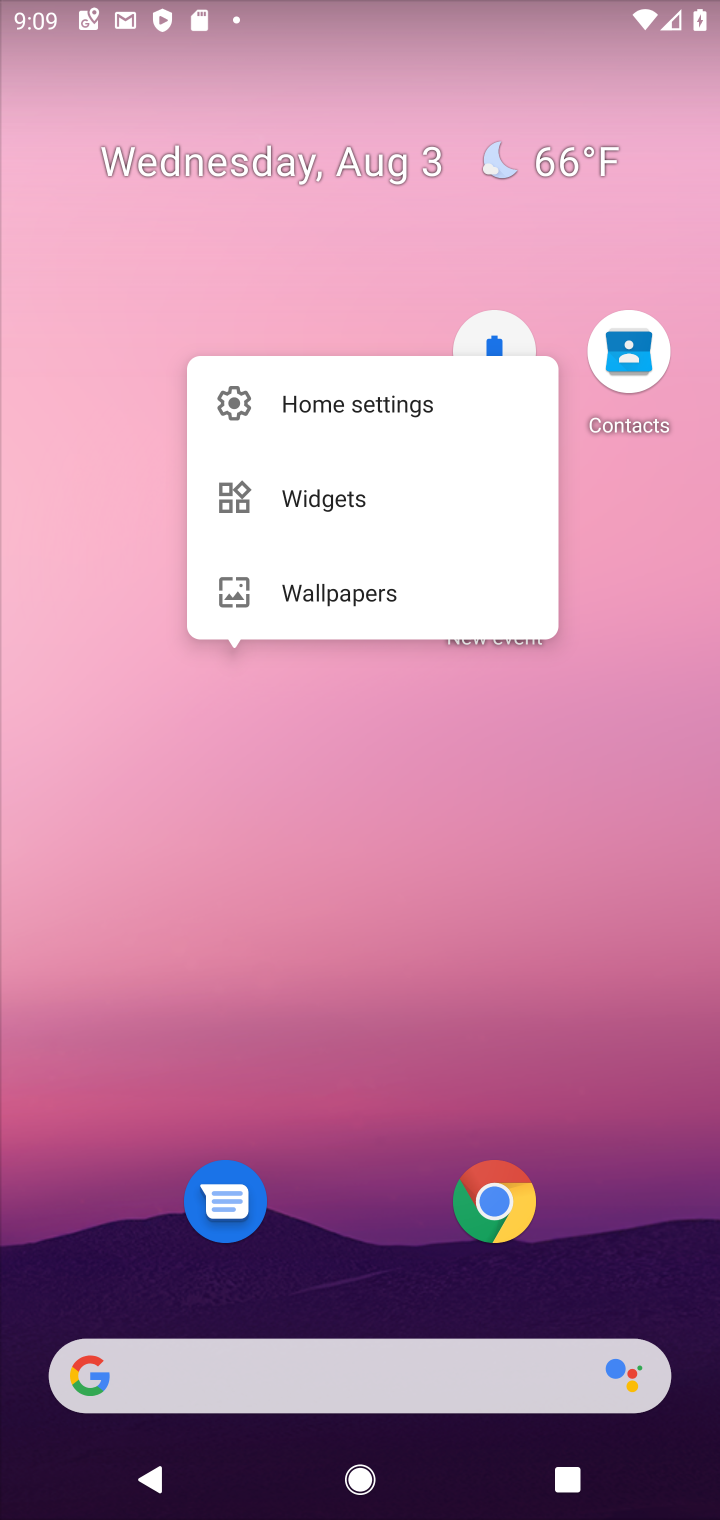
Step 27: drag from (346, 676) to (456, 694)
Your task to perform on an android device: Open Chrome and go to the settings page Image 28: 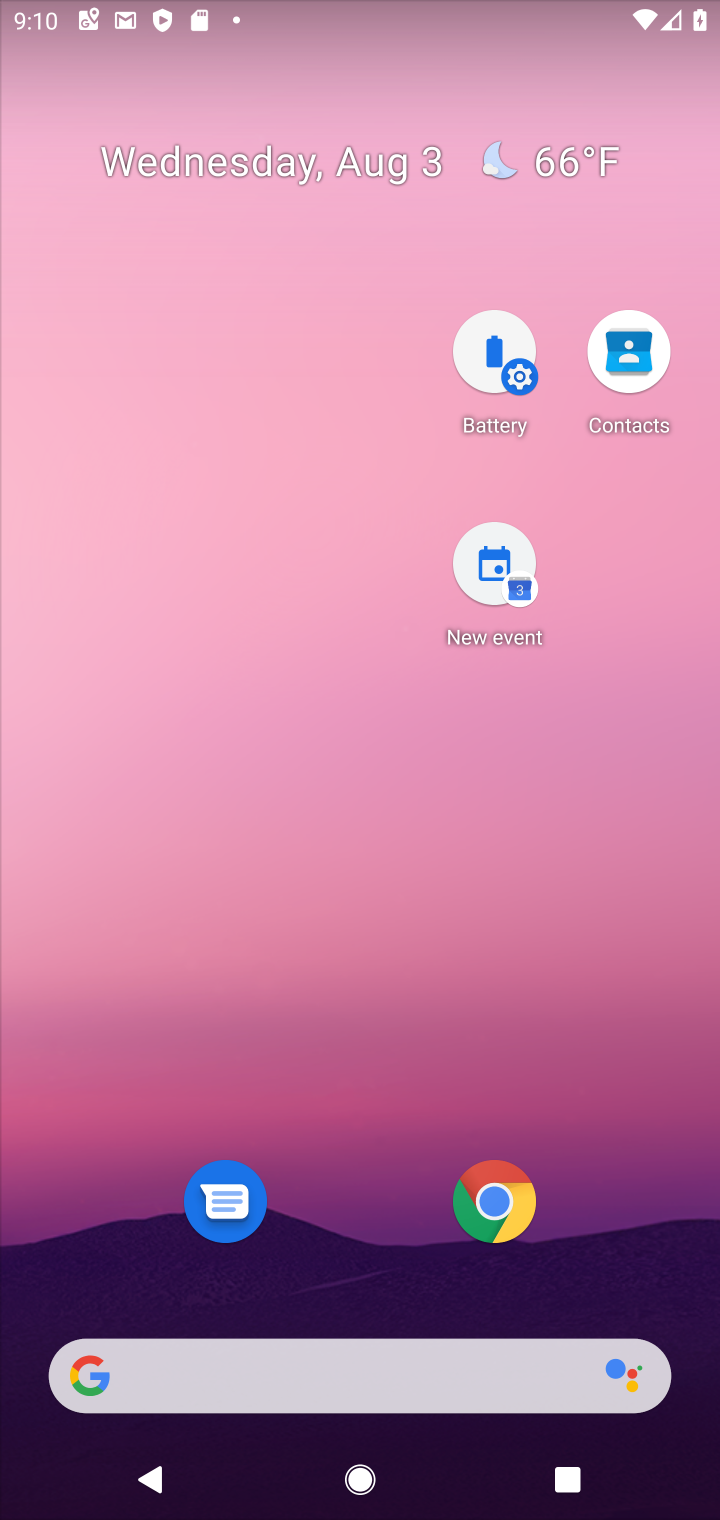
Step 28: click (247, 1207)
Your task to perform on an android device: Open Chrome and go to the settings page Image 29: 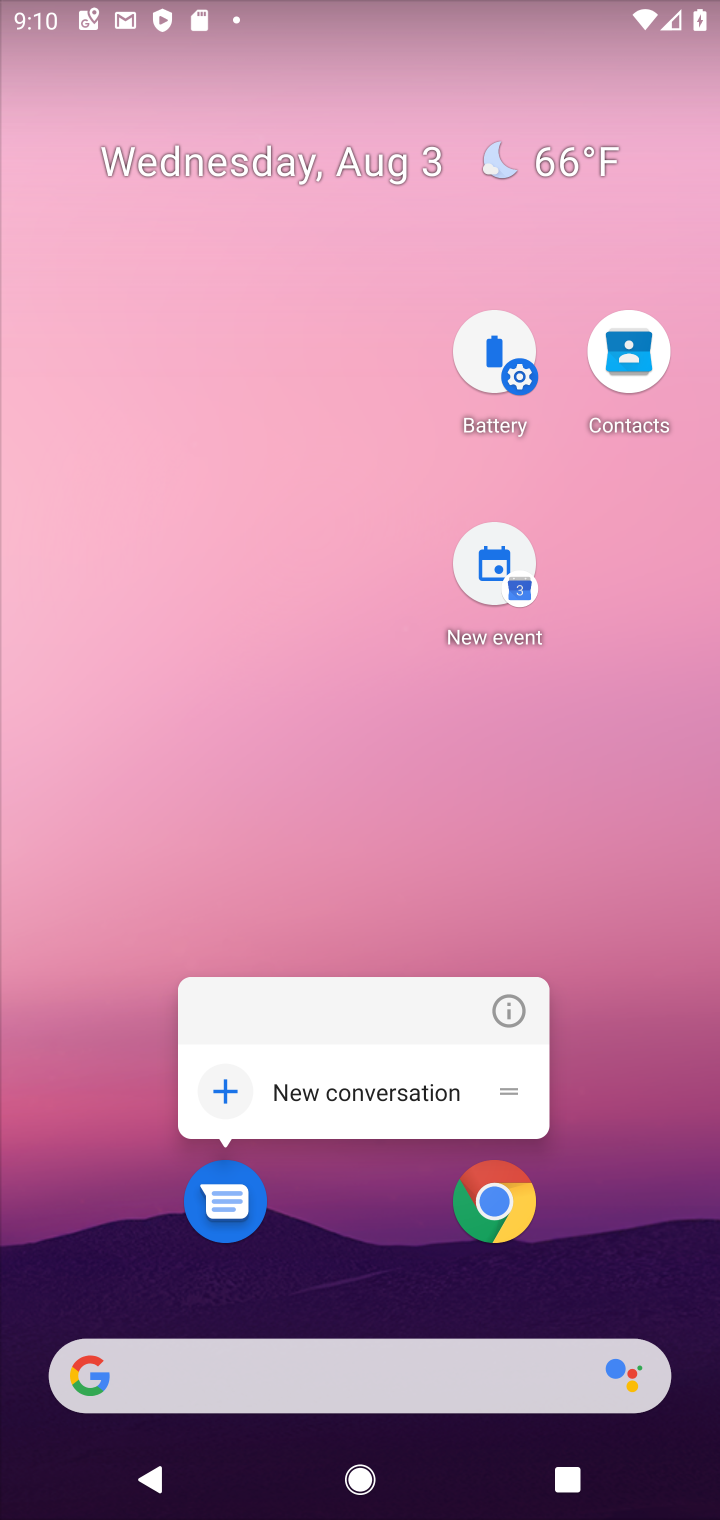
Step 29: click (269, 1142)
Your task to perform on an android device: Open Chrome and go to the settings page Image 30: 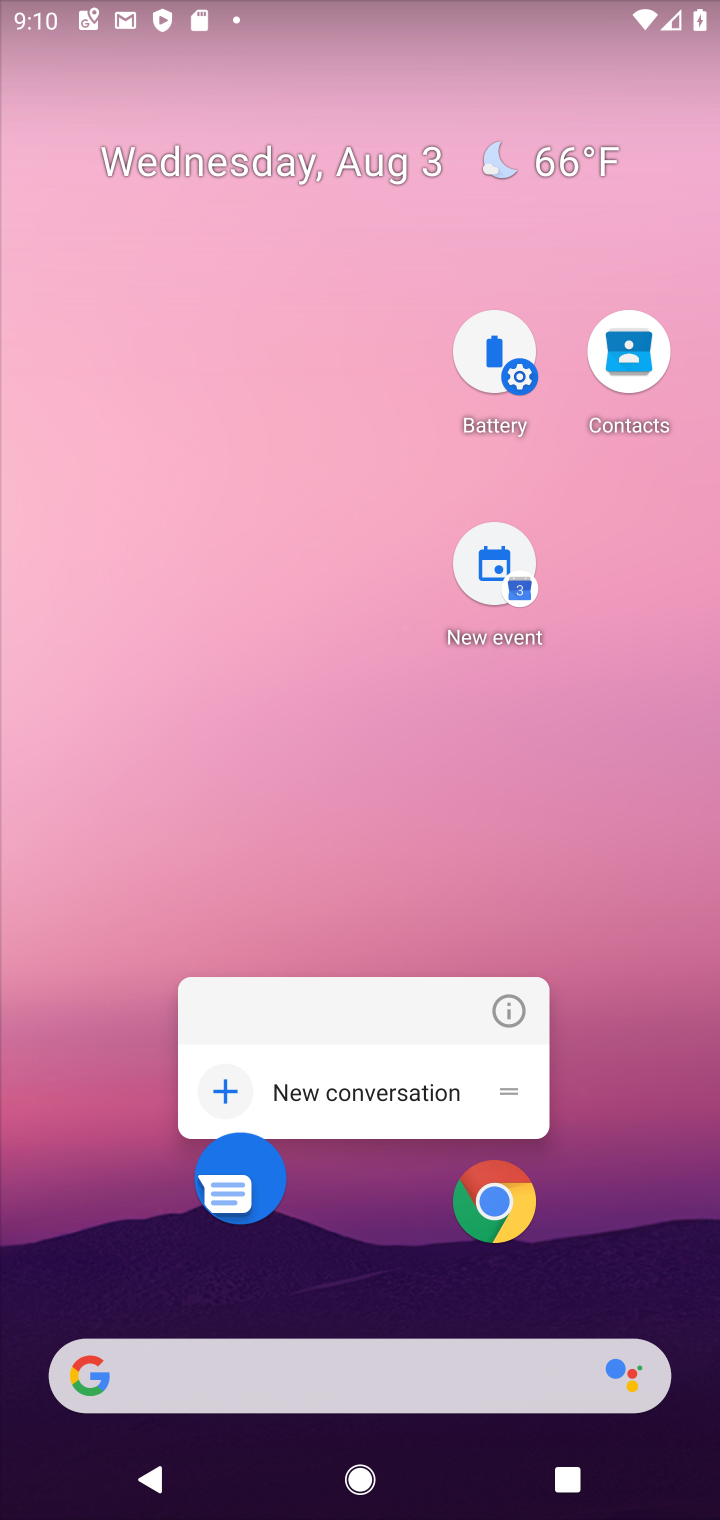
Step 30: click (286, 1118)
Your task to perform on an android device: Open Chrome and go to the settings page Image 31: 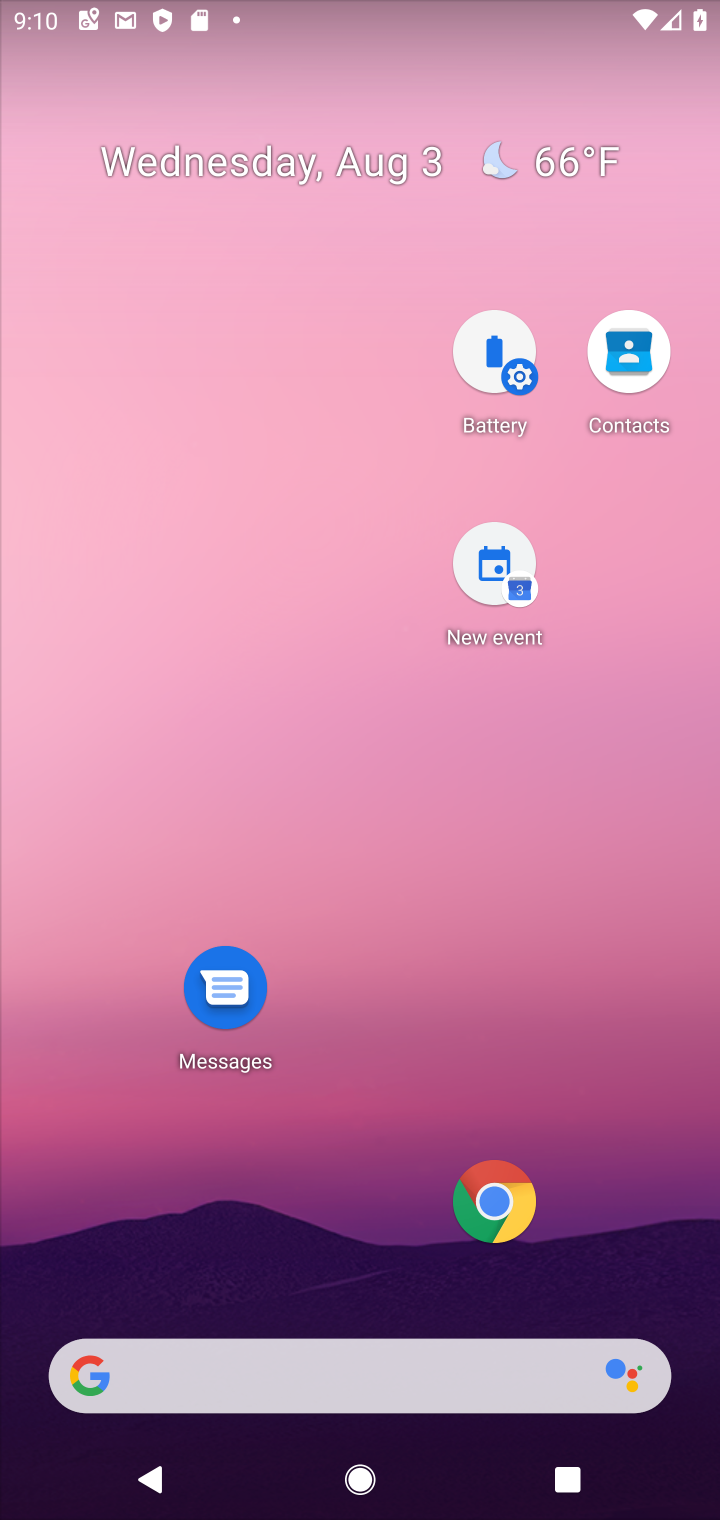
Step 31: drag from (411, 393) to (450, 251)
Your task to perform on an android device: Open Chrome and go to the settings page Image 32: 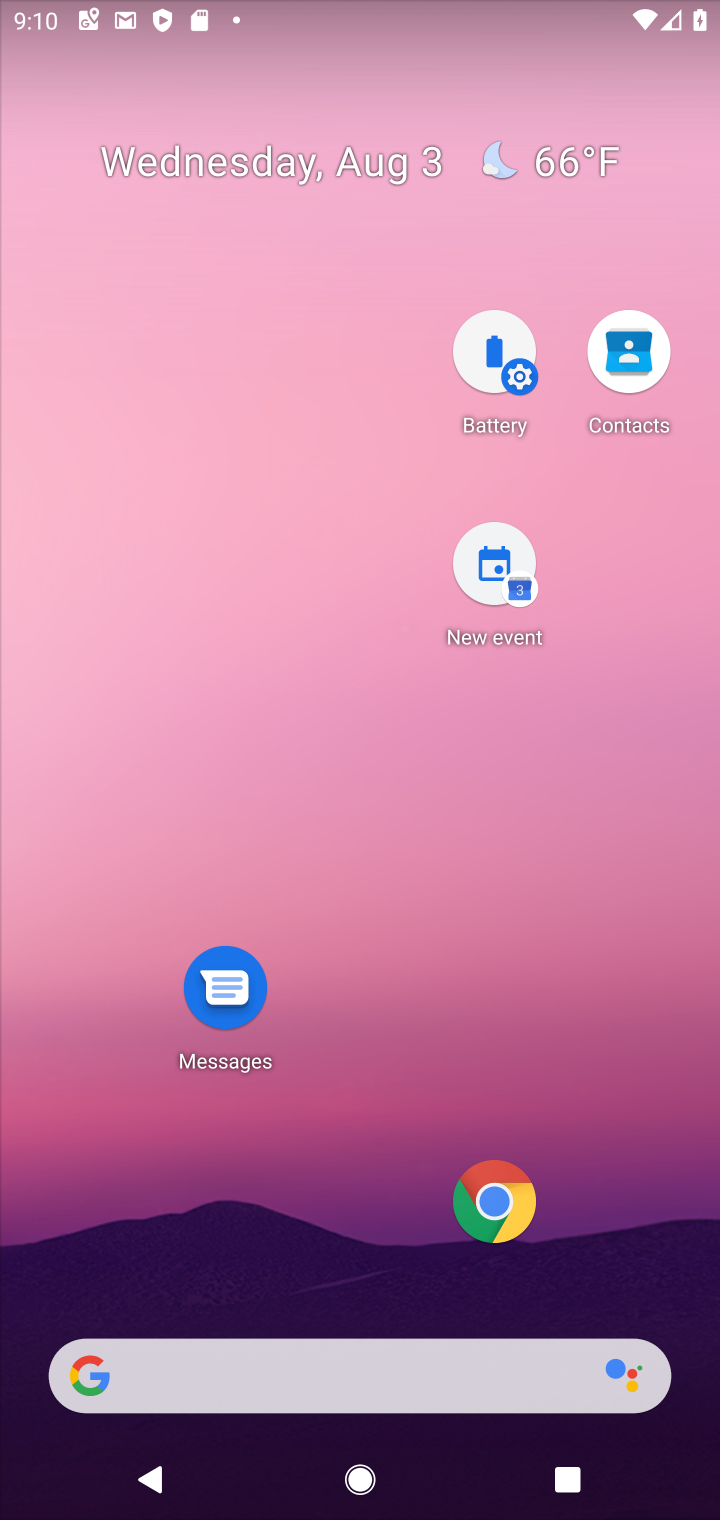
Step 32: drag from (355, 614) to (468, 658)
Your task to perform on an android device: Open Chrome and go to the settings page Image 33: 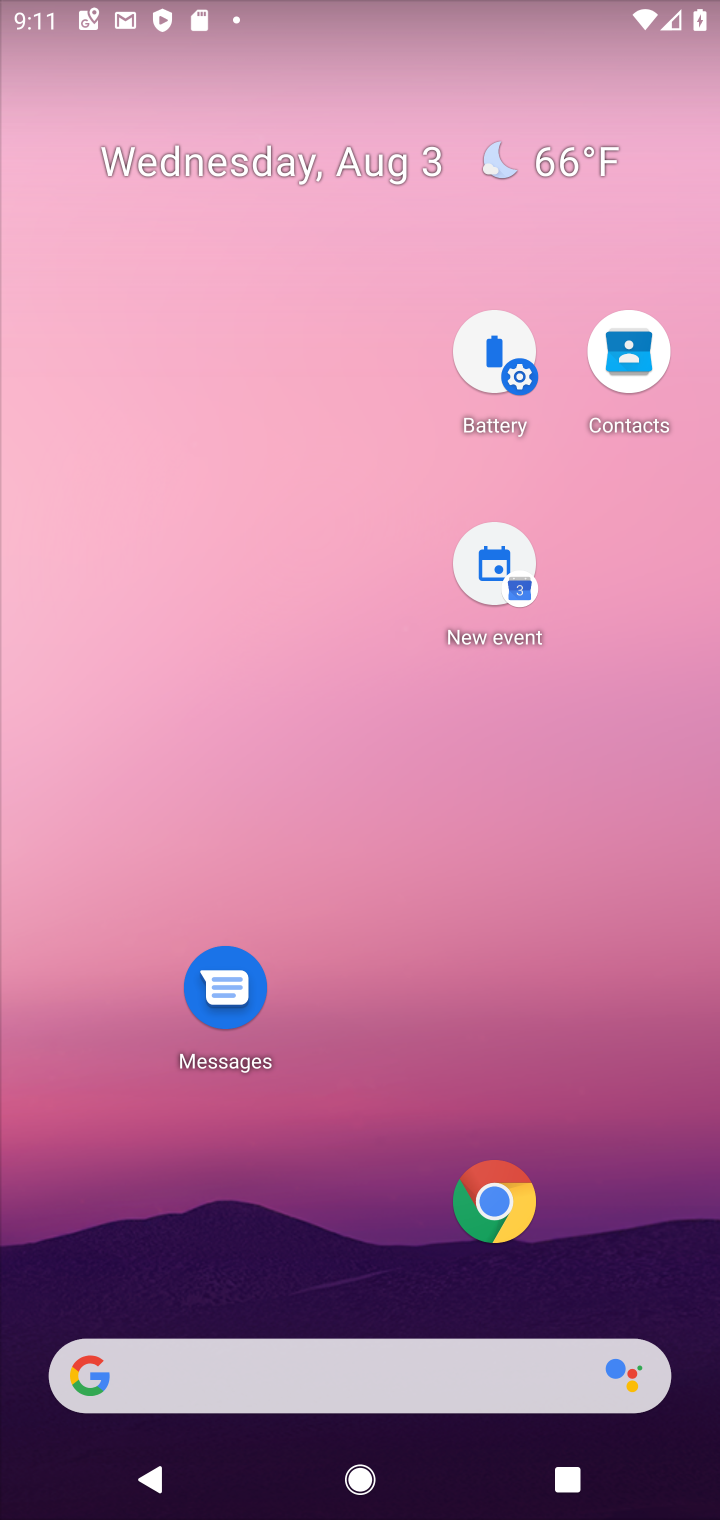
Step 33: drag from (506, 1409) to (470, 347)
Your task to perform on an android device: Open Chrome and go to the settings page Image 34: 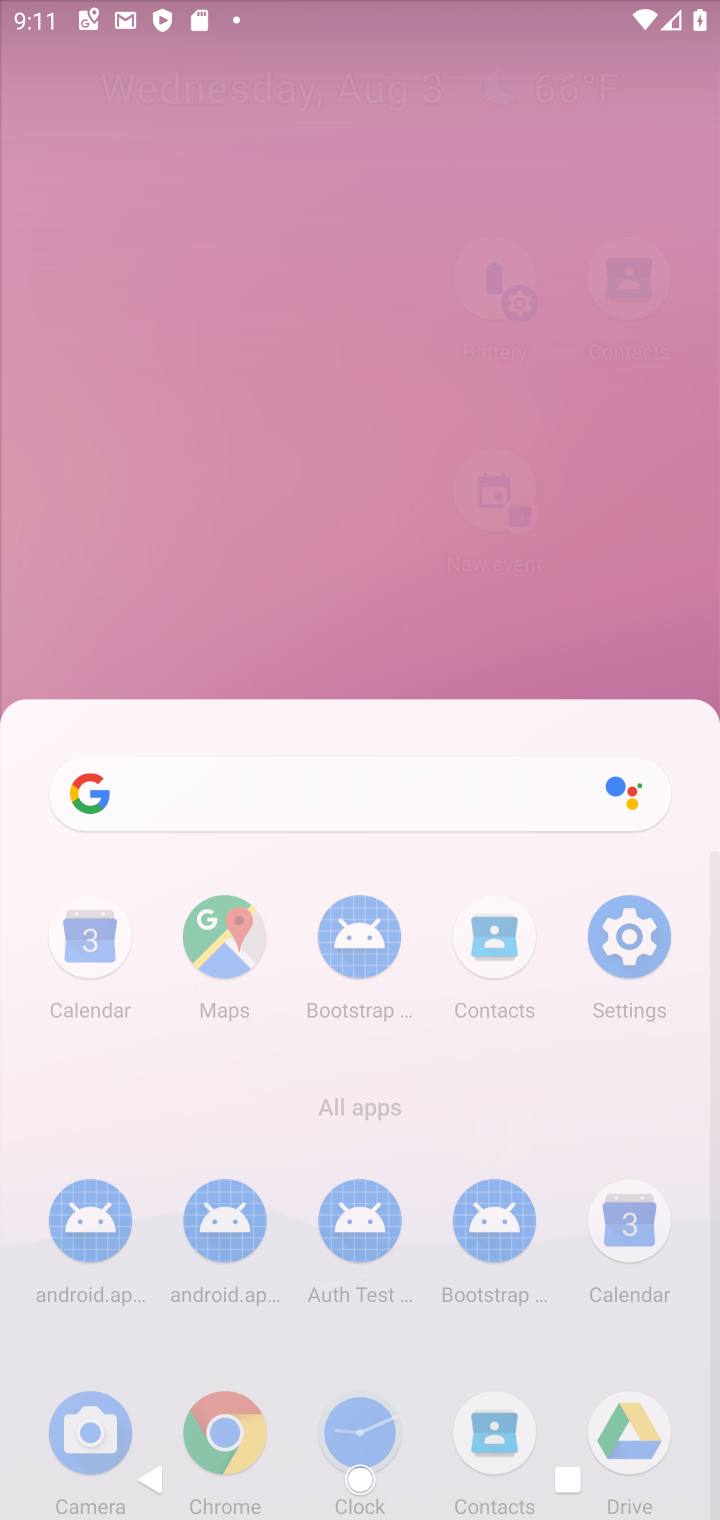
Step 34: drag from (443, 714) to (436, 244)
Your task to perform on an android device: Open Chrome and go to the settings page Image 35: 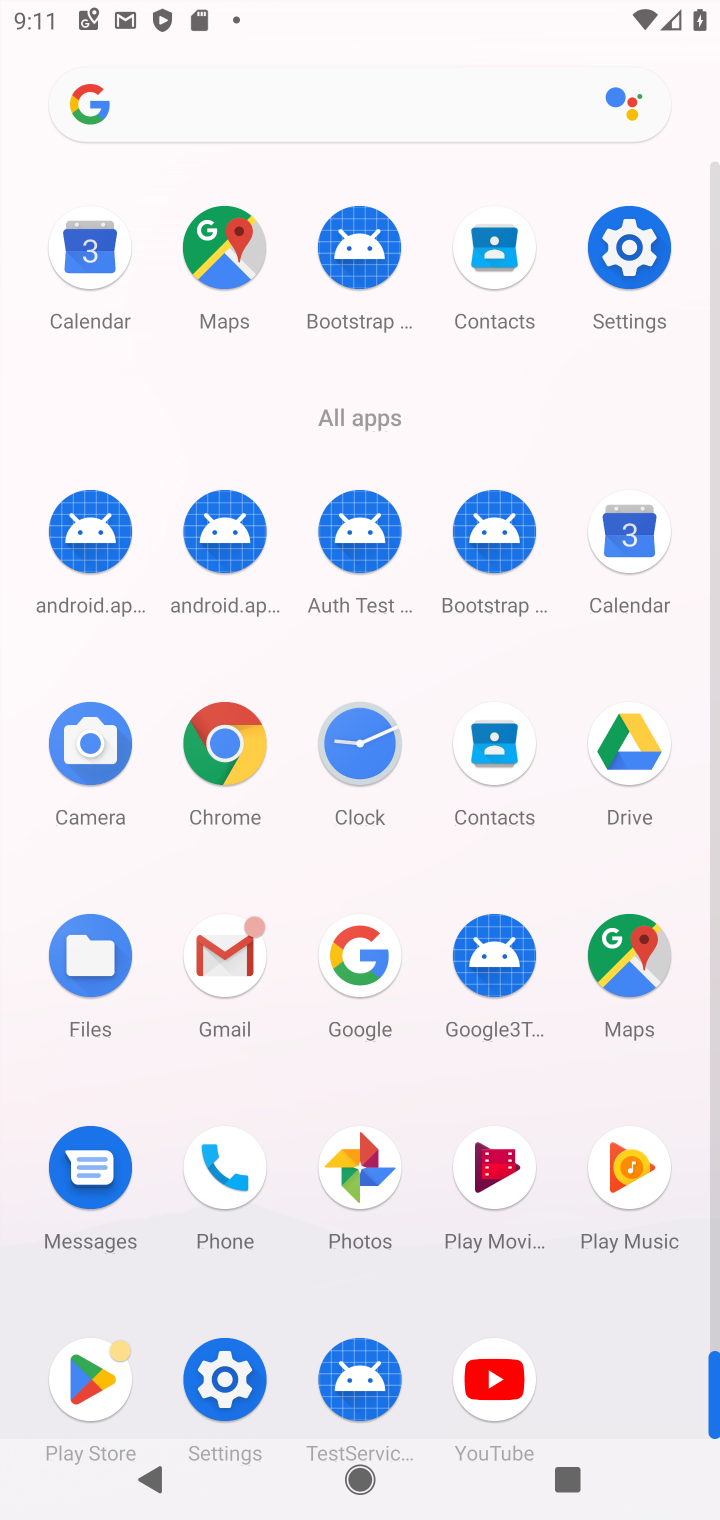
Step 35: click (235, 736)
Your task to perform on an android device: Open Chrome and go to the settings page Image 36: 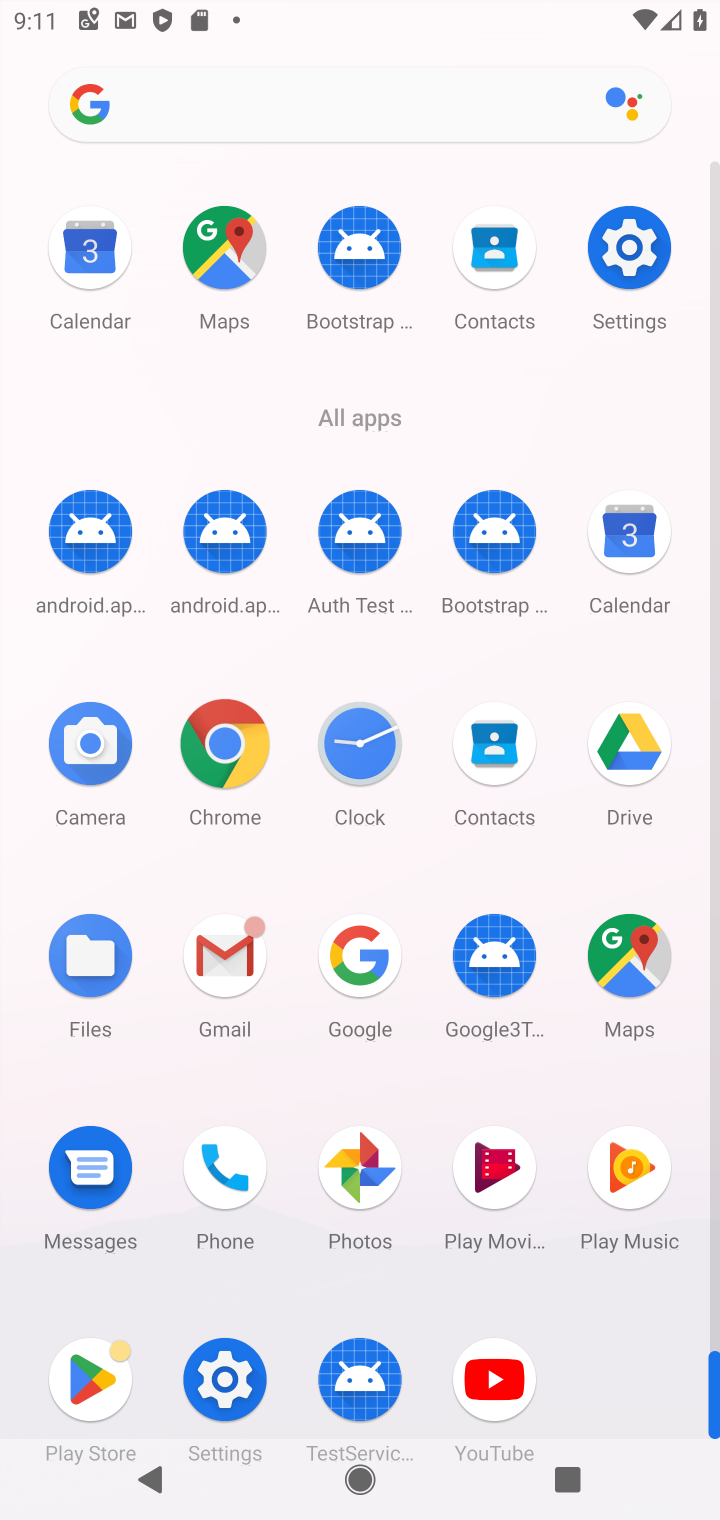
Step 36: click (245, 730)
Your task to perform on an android device: Open Chrome and go to the settings page Image 37: 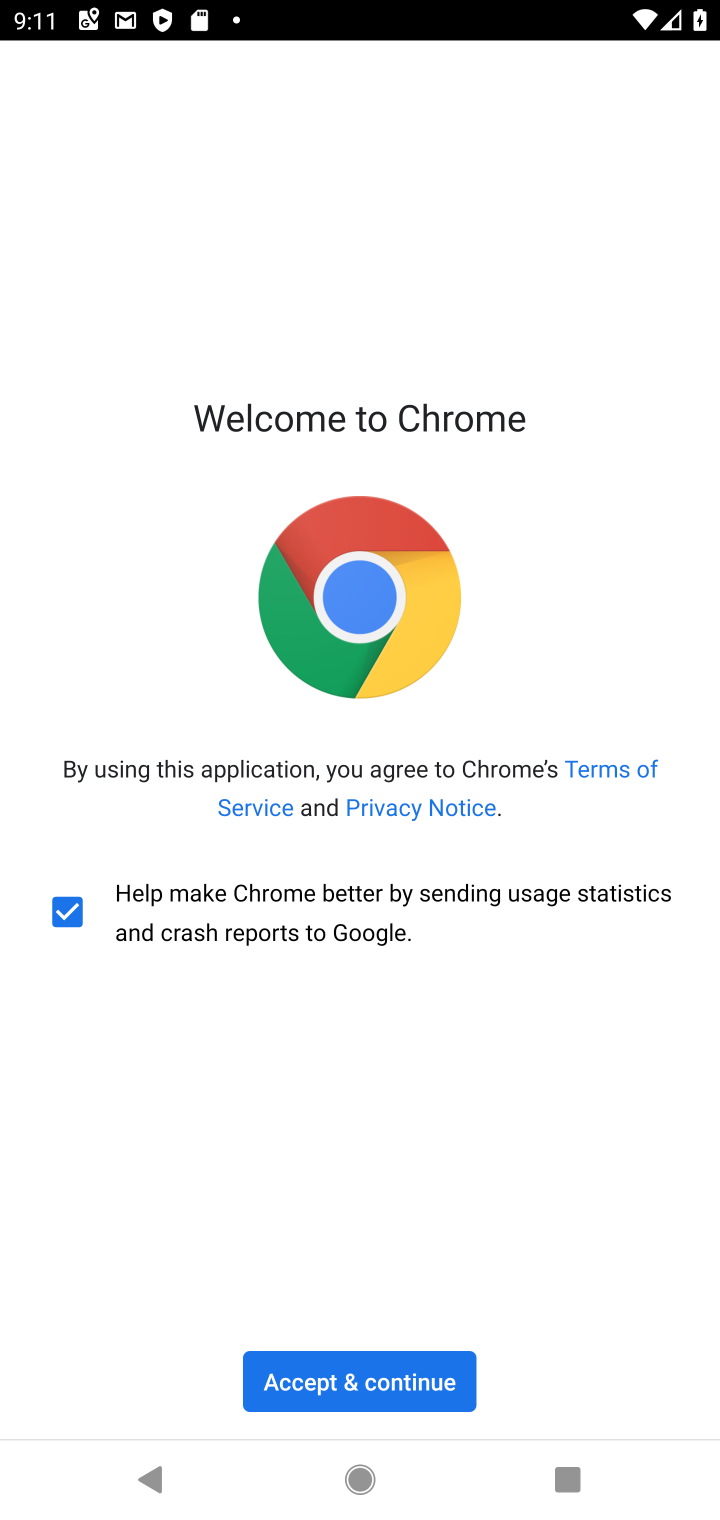
Step 37: drag from (483, 1214) to (351, 411)
Your task to perform on an android device: Open Chrome and go to the settings page Image 38: 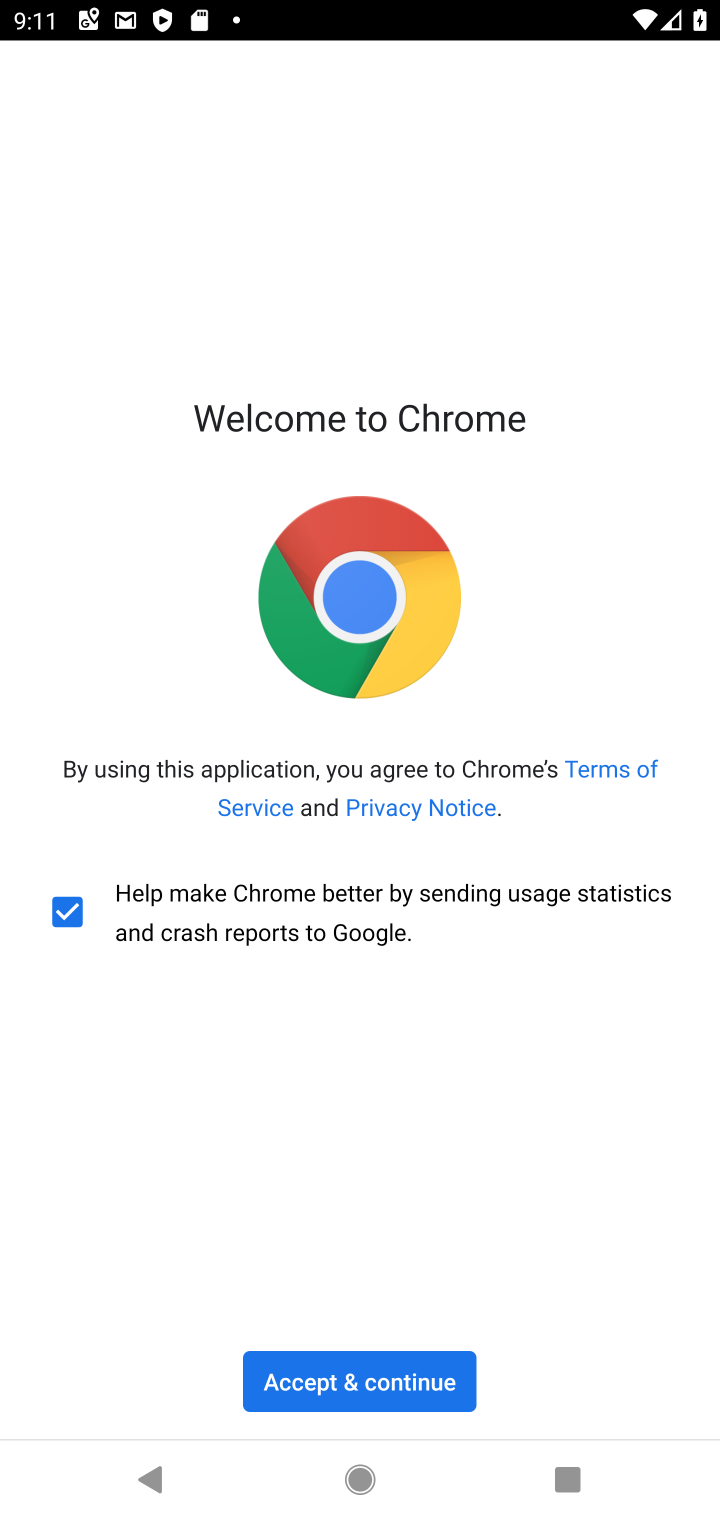
Step 38: drag from (482, 1141) to (513, 629)
Your task to perform on an android device: Open Chrome and go to the settings page Image 39: 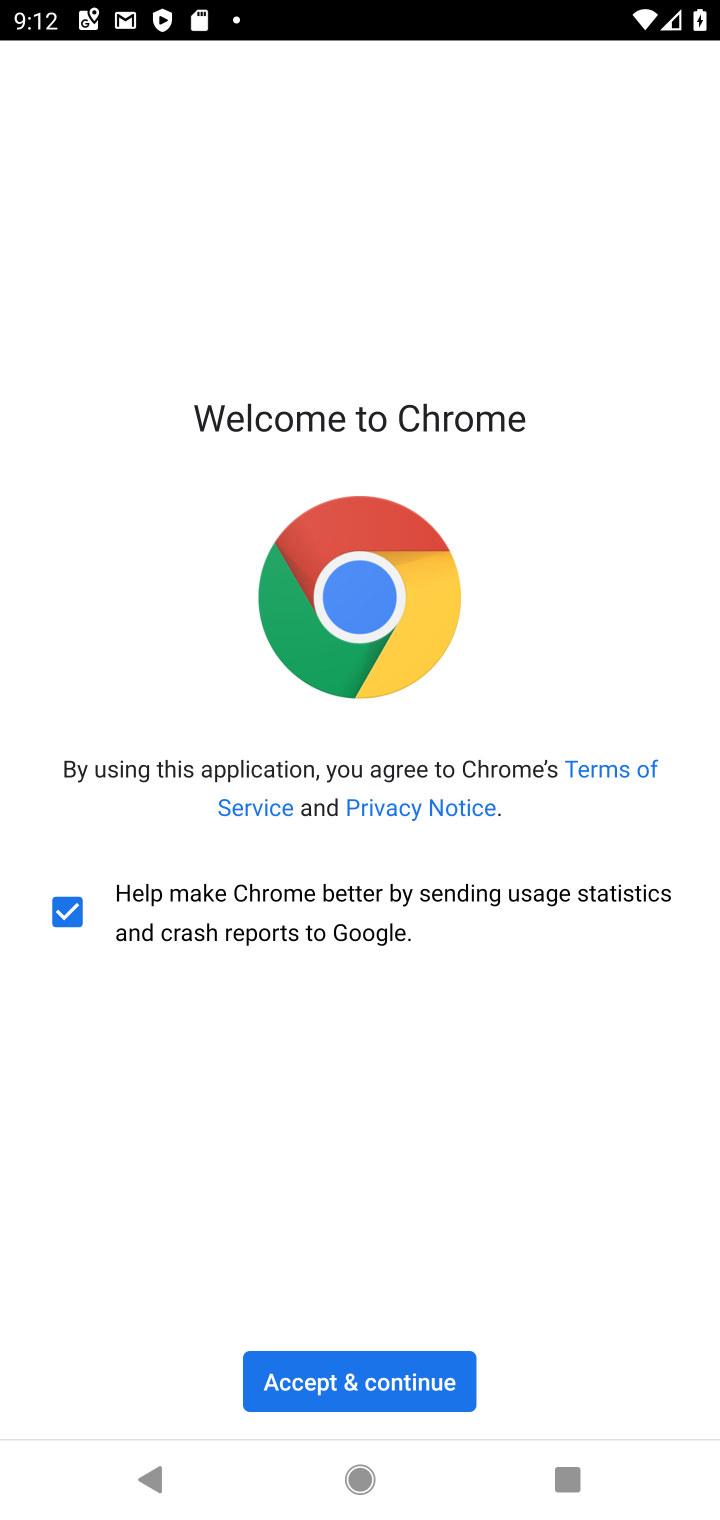
Step 39: click (371, 1361)
Your task to perform on an android device: Open Chrome and go to the settings page Image 40: 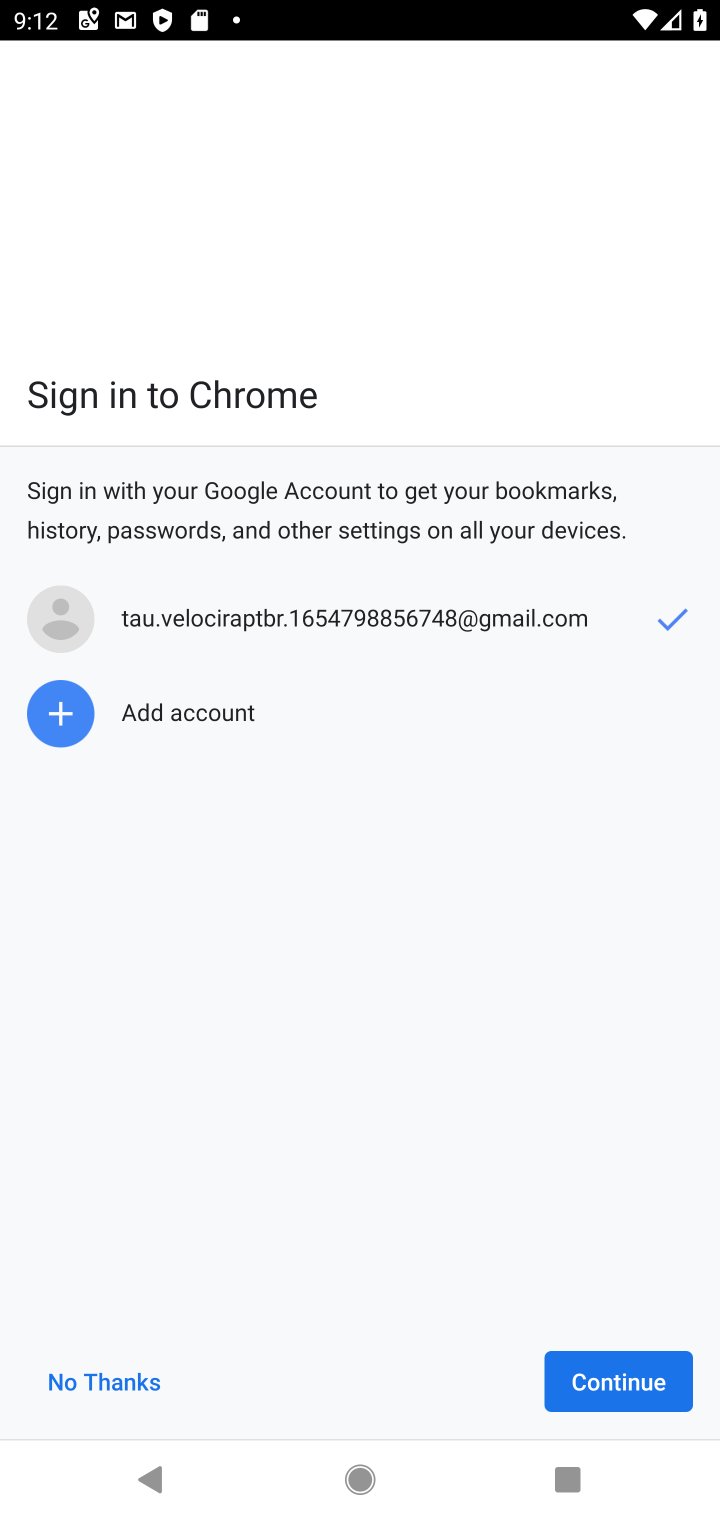
Step 40: click (111, 1374)
Your task to perform on an android device: Open Chrome and go to the settings page Image 41: 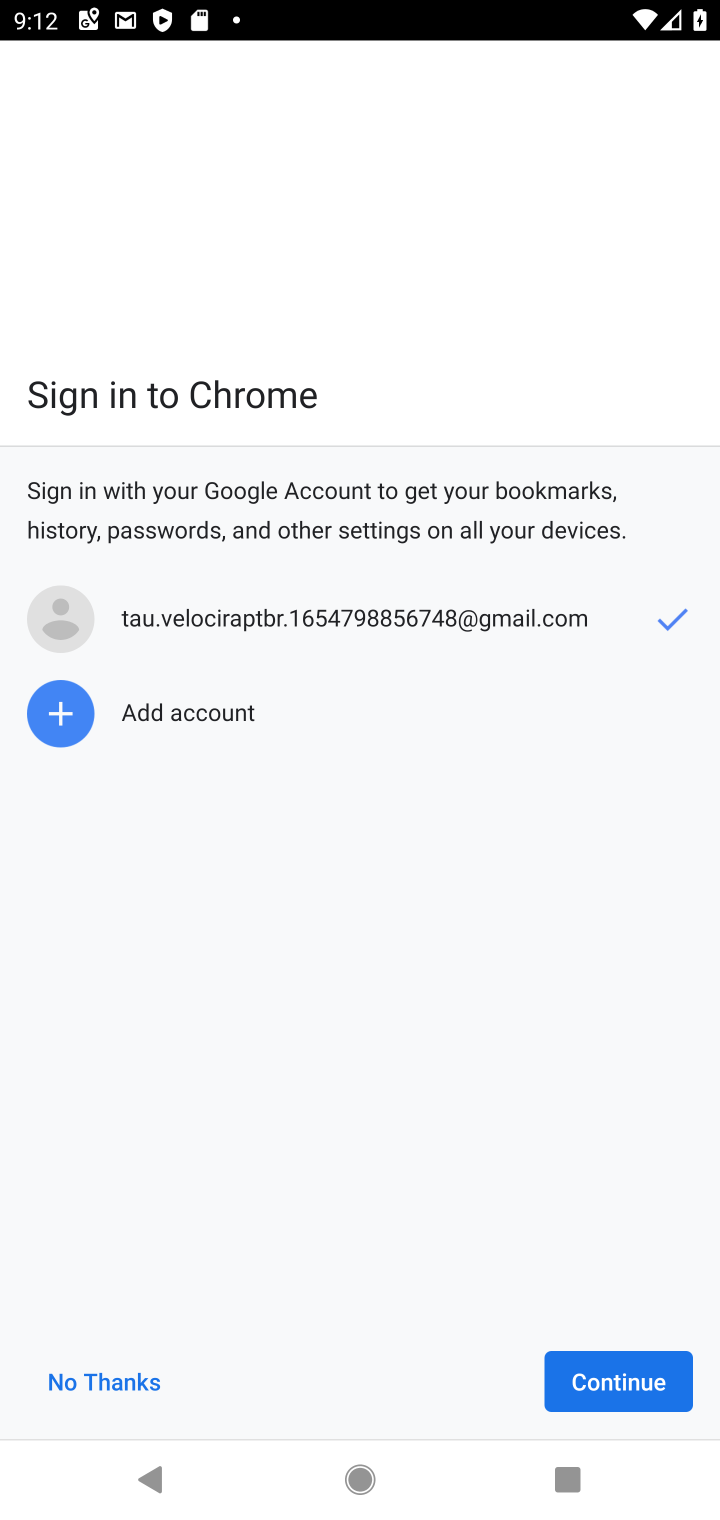
Step 41: click (106, 1366)
Your task to perform on an android device: Open Chrome and go to the settings page Image 42: 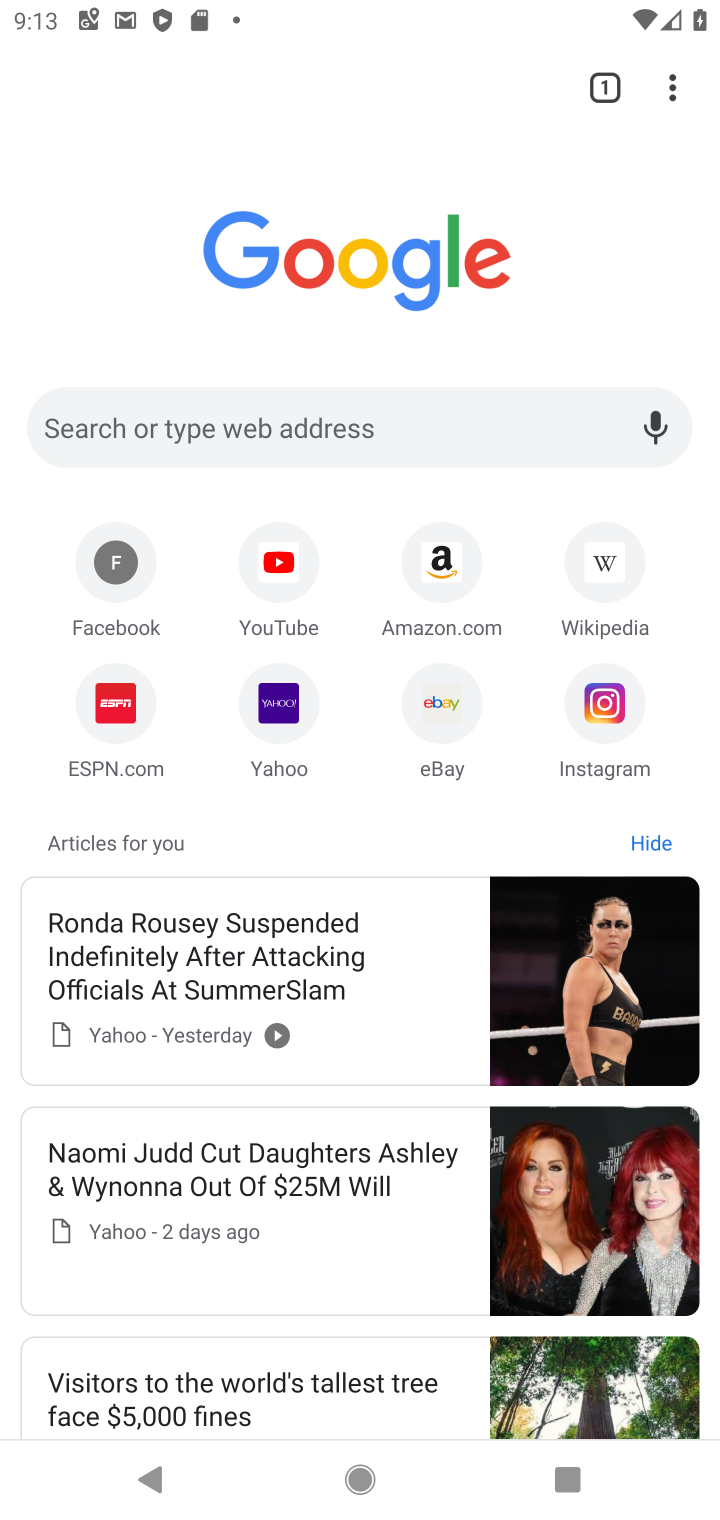
Step 42: click (669, 88)
Your task to perform on an android device: Open Chrome and go to the settings page Image 43: 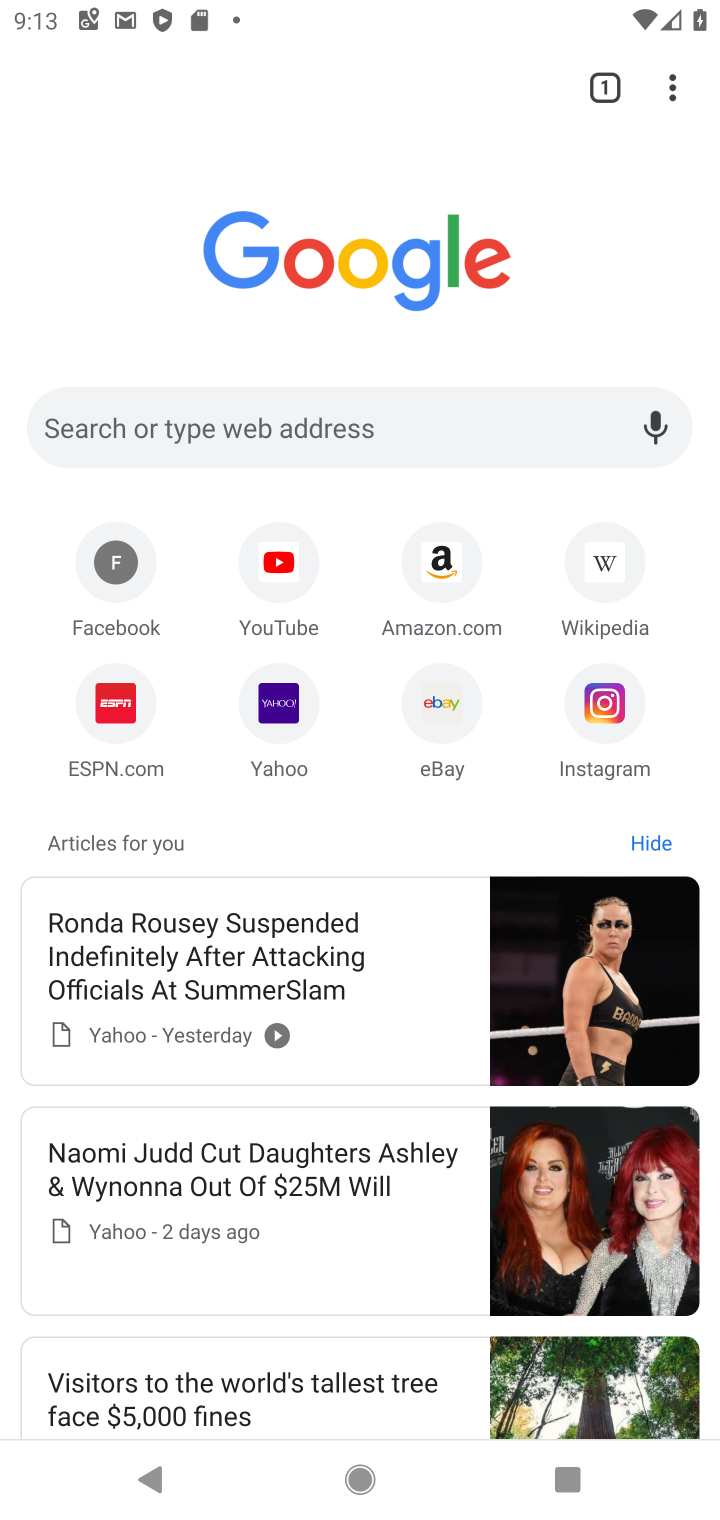
Step 43: click (680, 109)
Your task to perform on an android device: Open Chrome and go to the settings page Image 44: 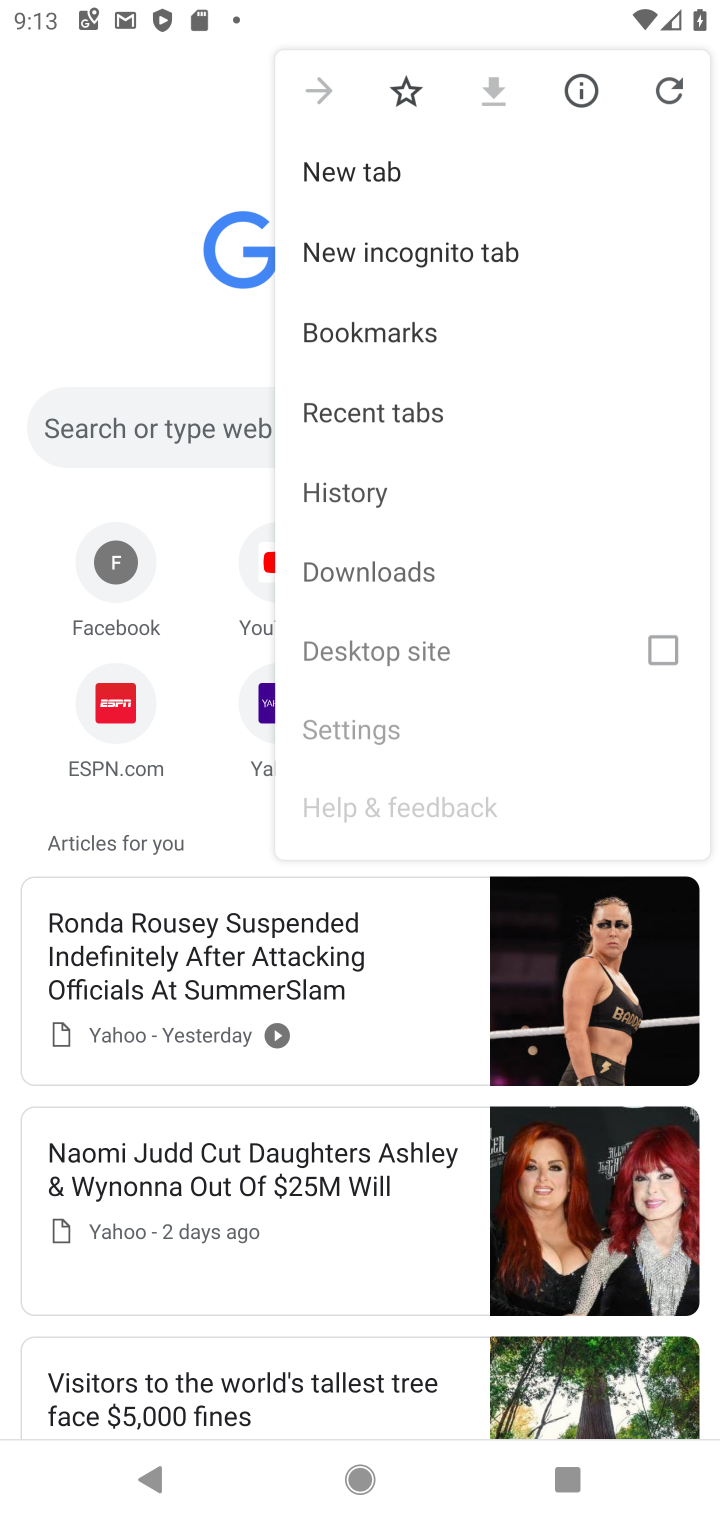
Step 44: click (672, 100)
Your task to perform on an android device: Open Chrome and go to the settings page Image 45: 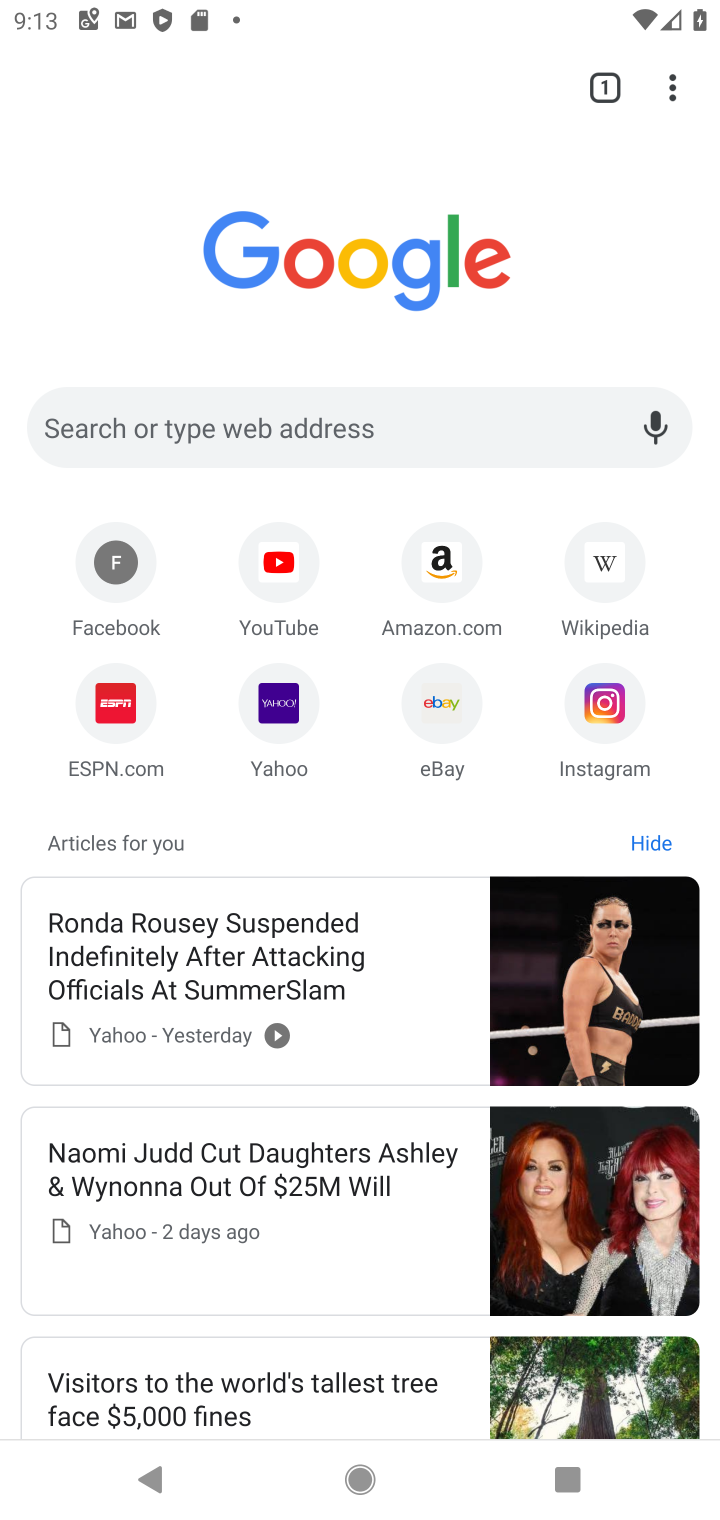
Step 45: task complete